Your task to perform on an android device: Open settings on Google Maps Image 0: 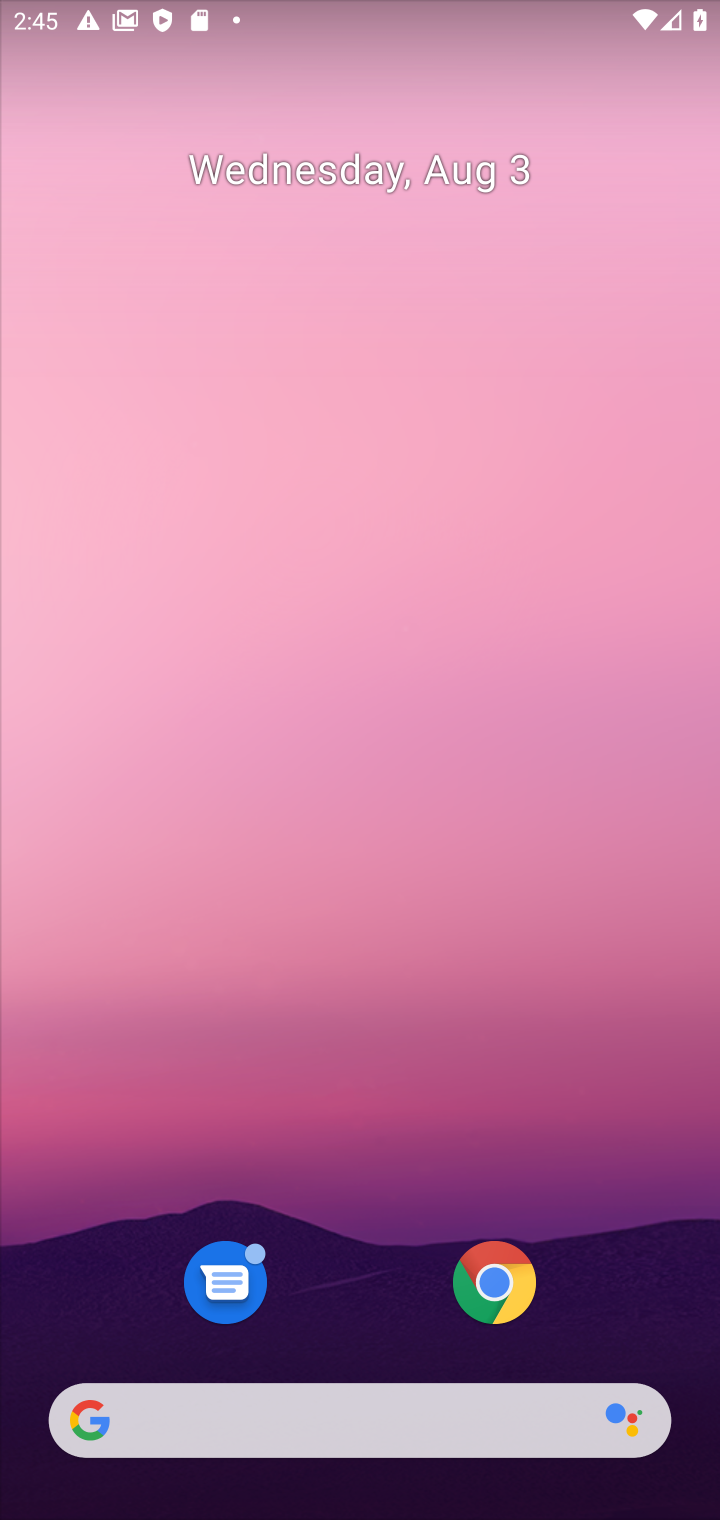
Step 0: drag from (396, 1408) to (211, 704)
Your task to perform on an android device: Open settings on Google Maps Image 1: 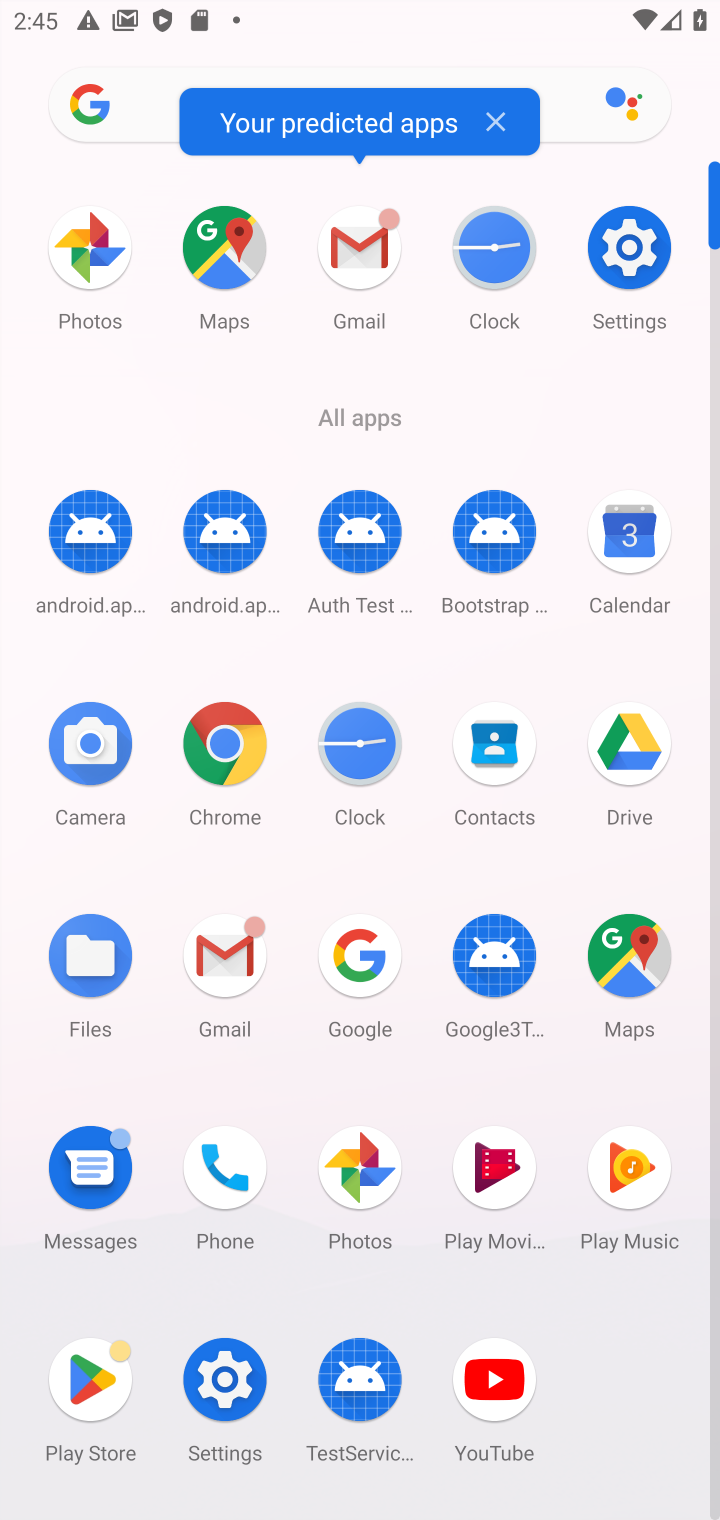
Step 1: click (621, 962)
Your task to perform on an android device: Open settings on Google Maps Image 2: 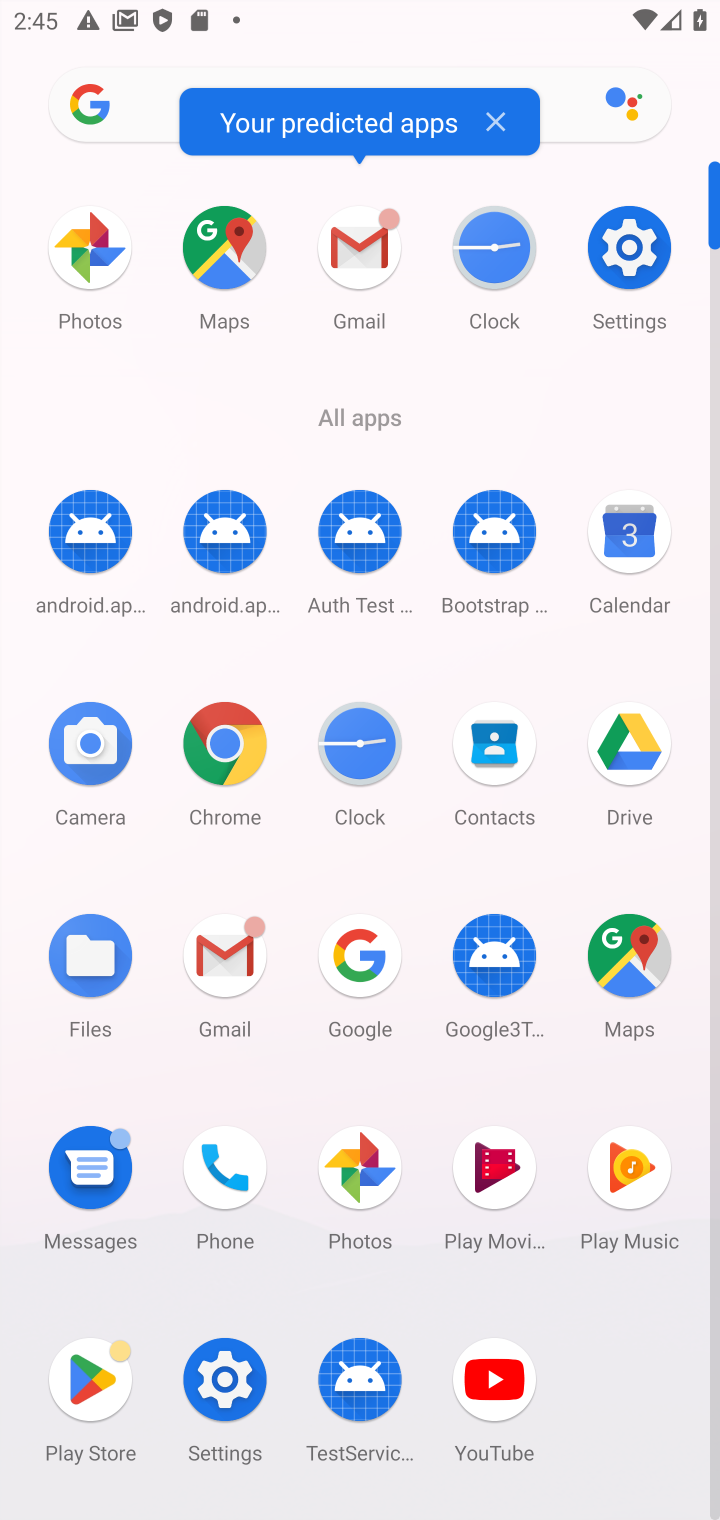
Step 2: click (621, 964)
Your task to perform on an android device: Open settings on Google Maps Image 3: 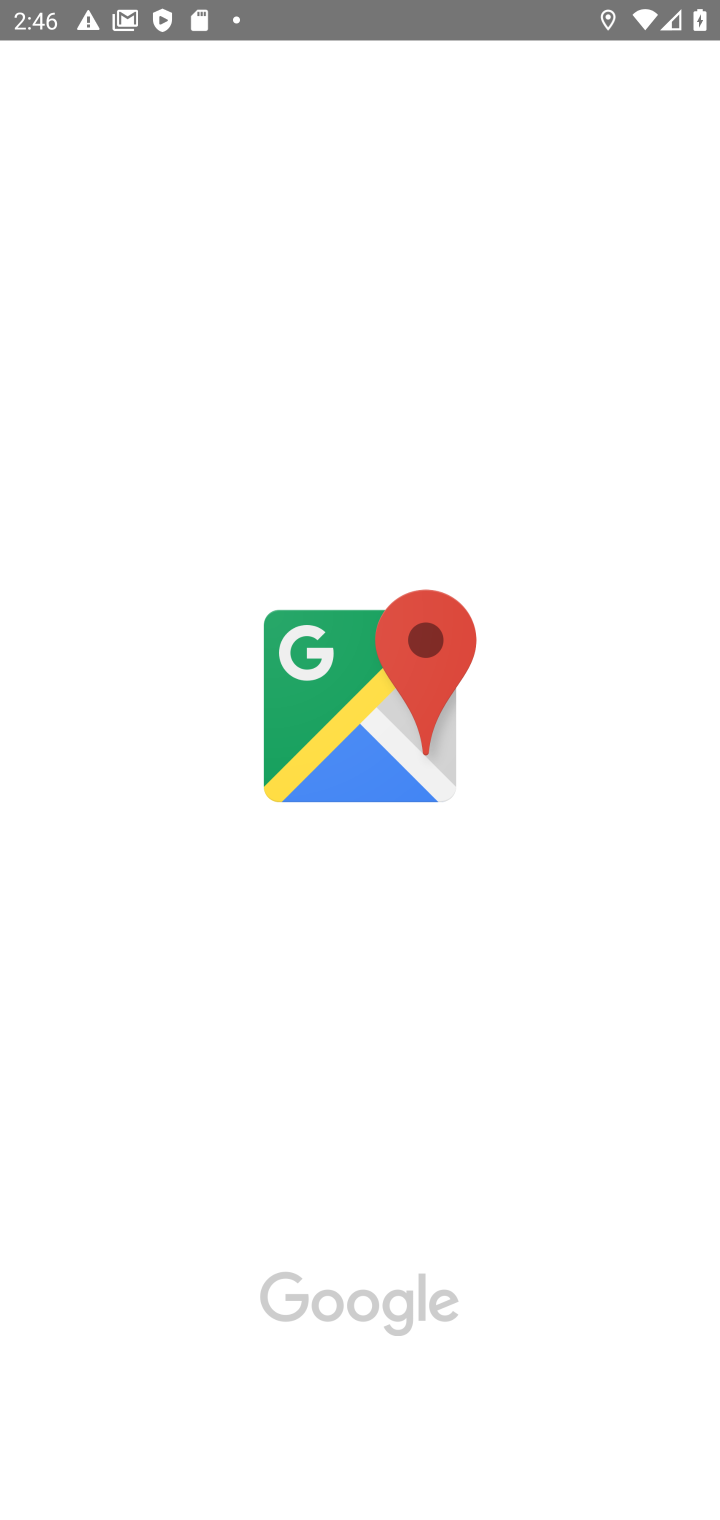
Step 3: press back button
Your task to perform on an android device: Open settings on Google Maps Image 4: 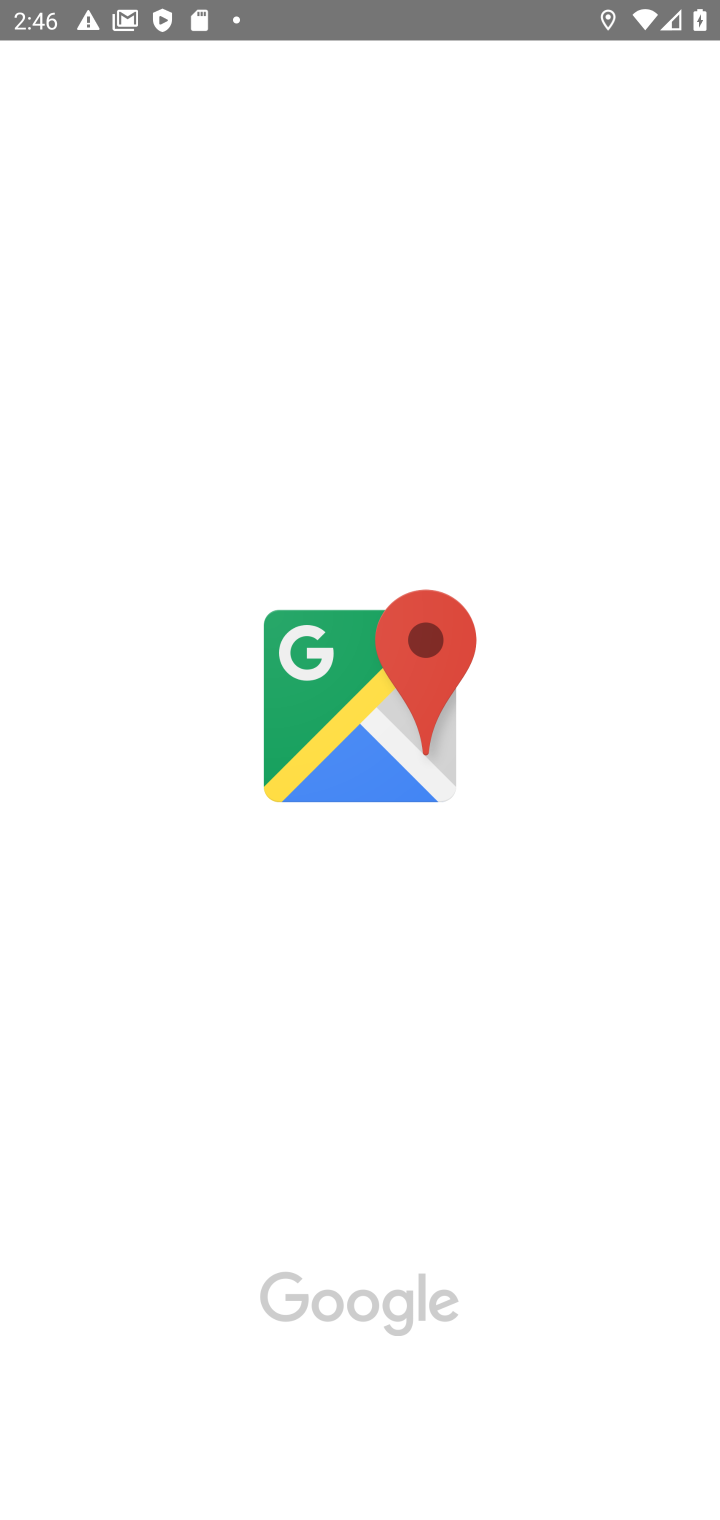
Step 4: click (269, 301)
Your task to perform on an android device: Open settings on Google Maps Image 5: 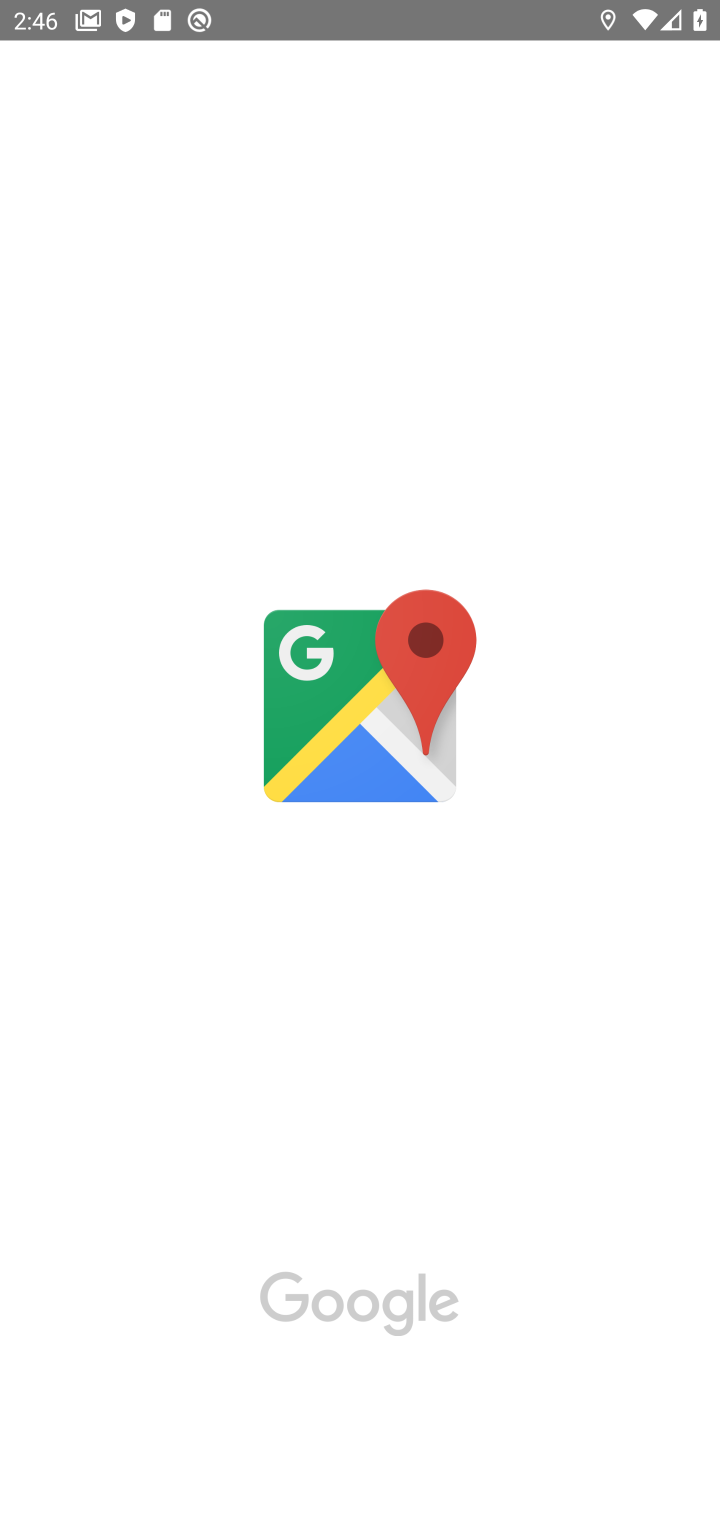
Step 5: press back button
Your task to perform on an android device: Open settings on Google Maps Image 6: 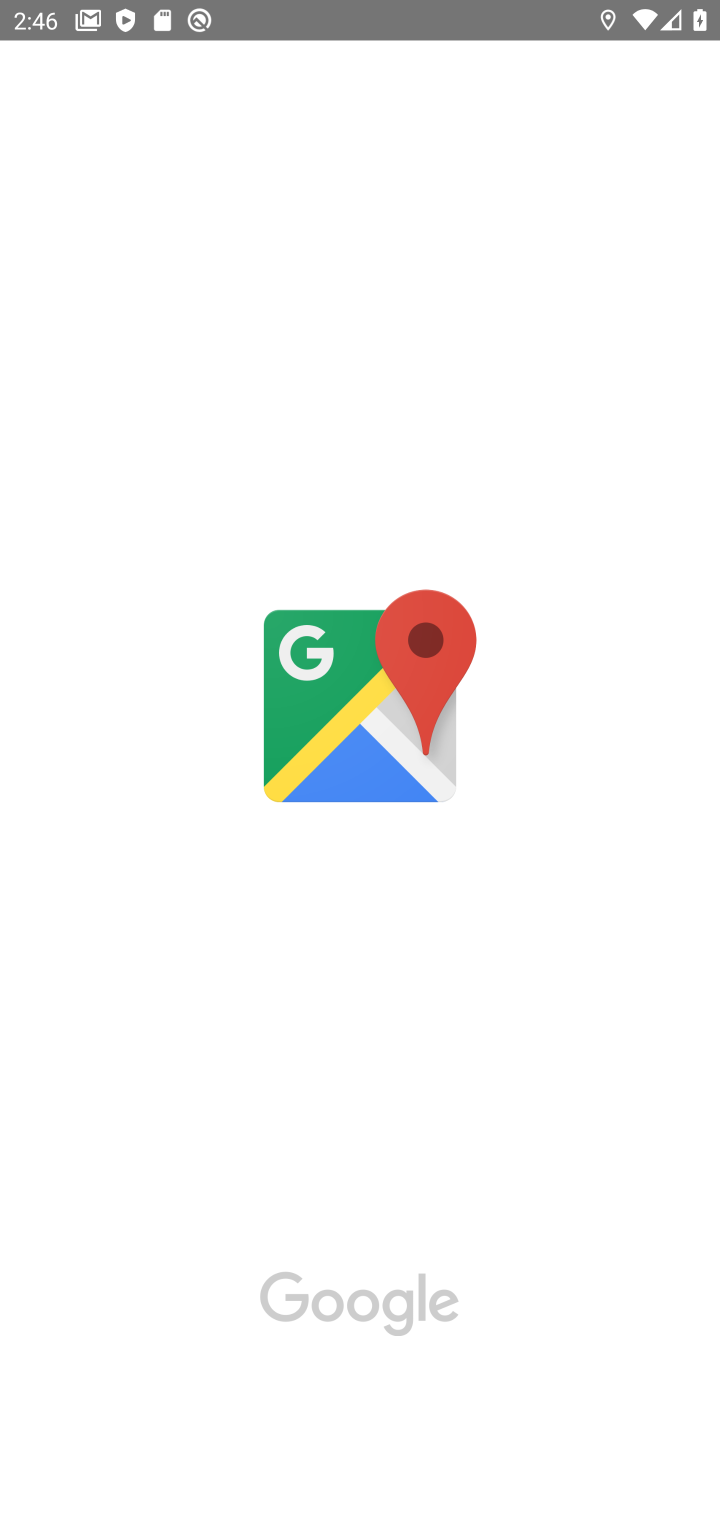
Step 6: press home button
Your task to perform on an android device: Open settings on Google Maps Image 7: 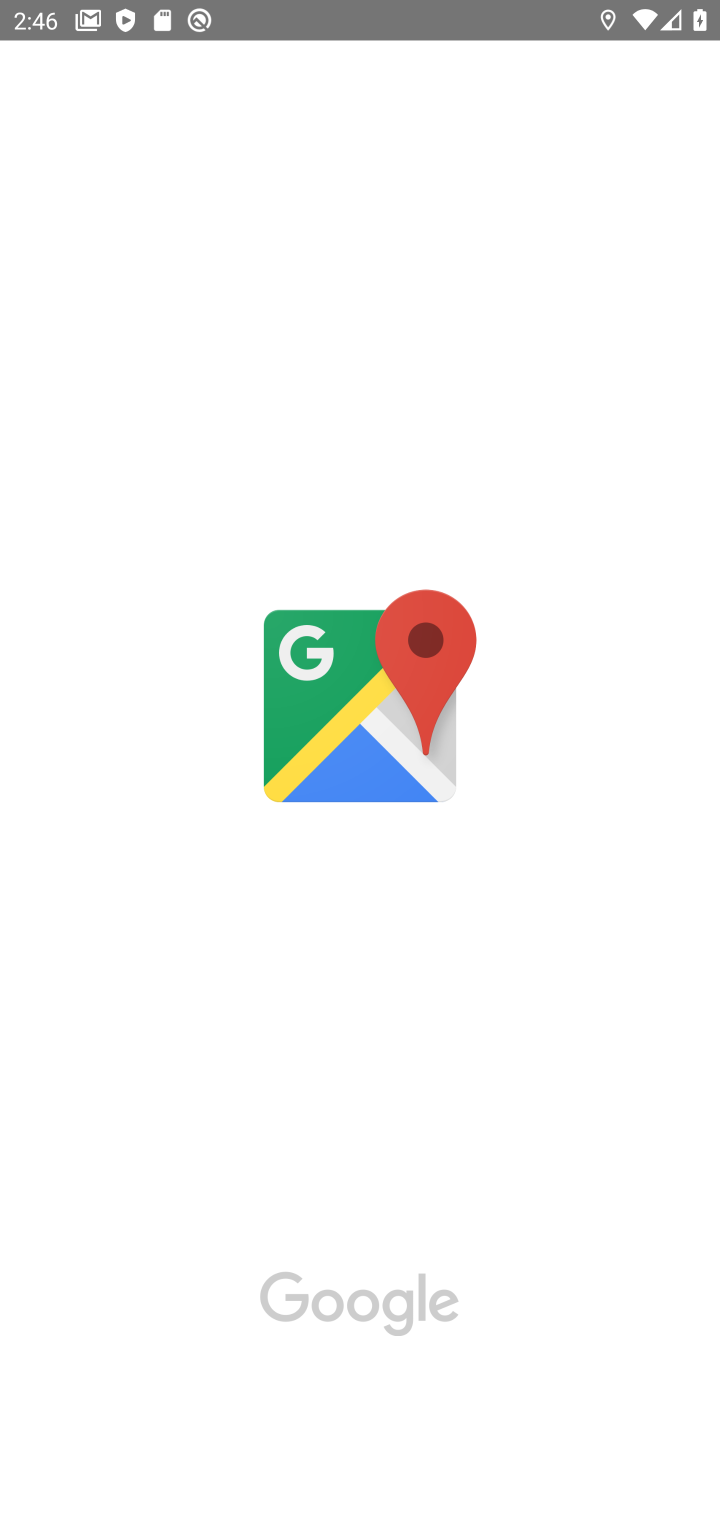
Step 7: click (231, 105)
Your task to perform on an android device: Open settings on Google Maps Image 8: 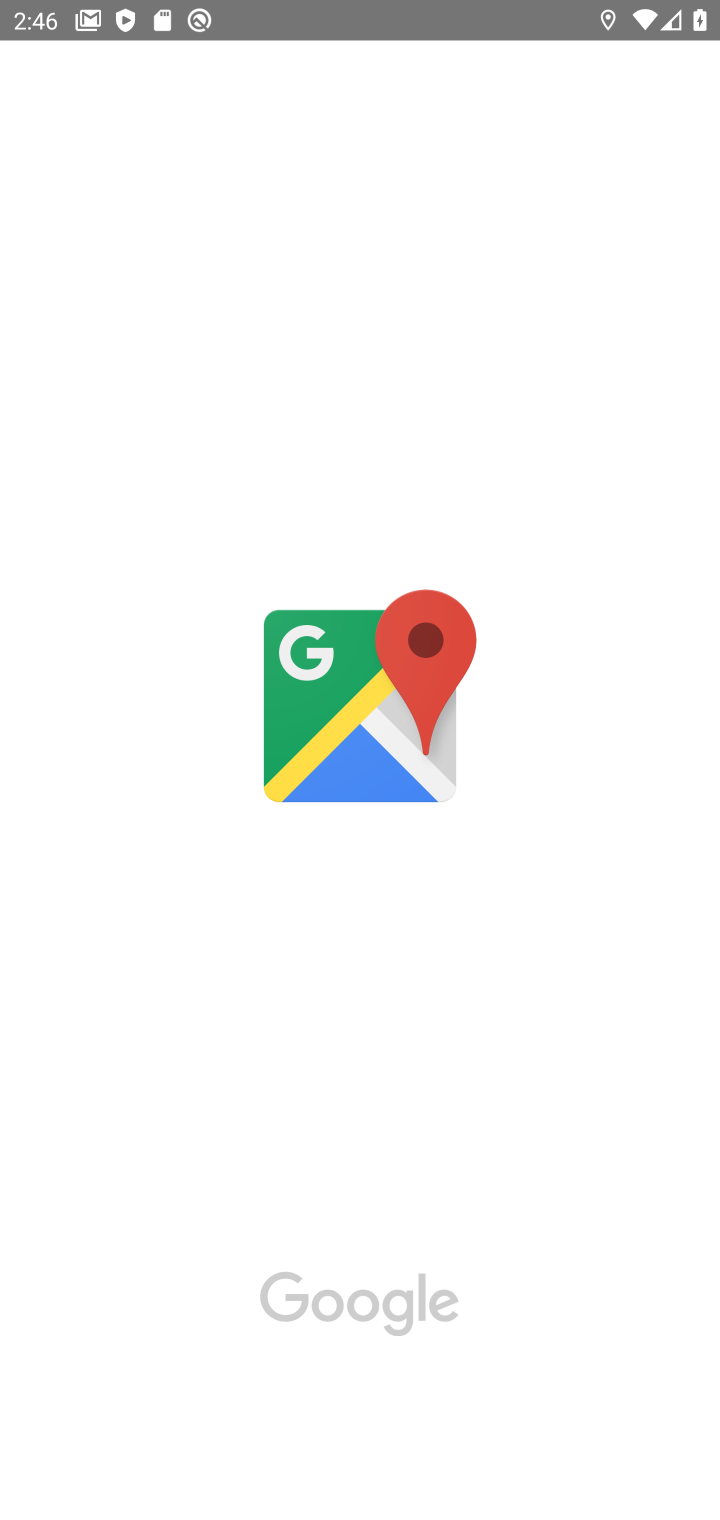
Step 8: press back button
Your task to perform on an android device: Open settings on Google Maps Image 9: 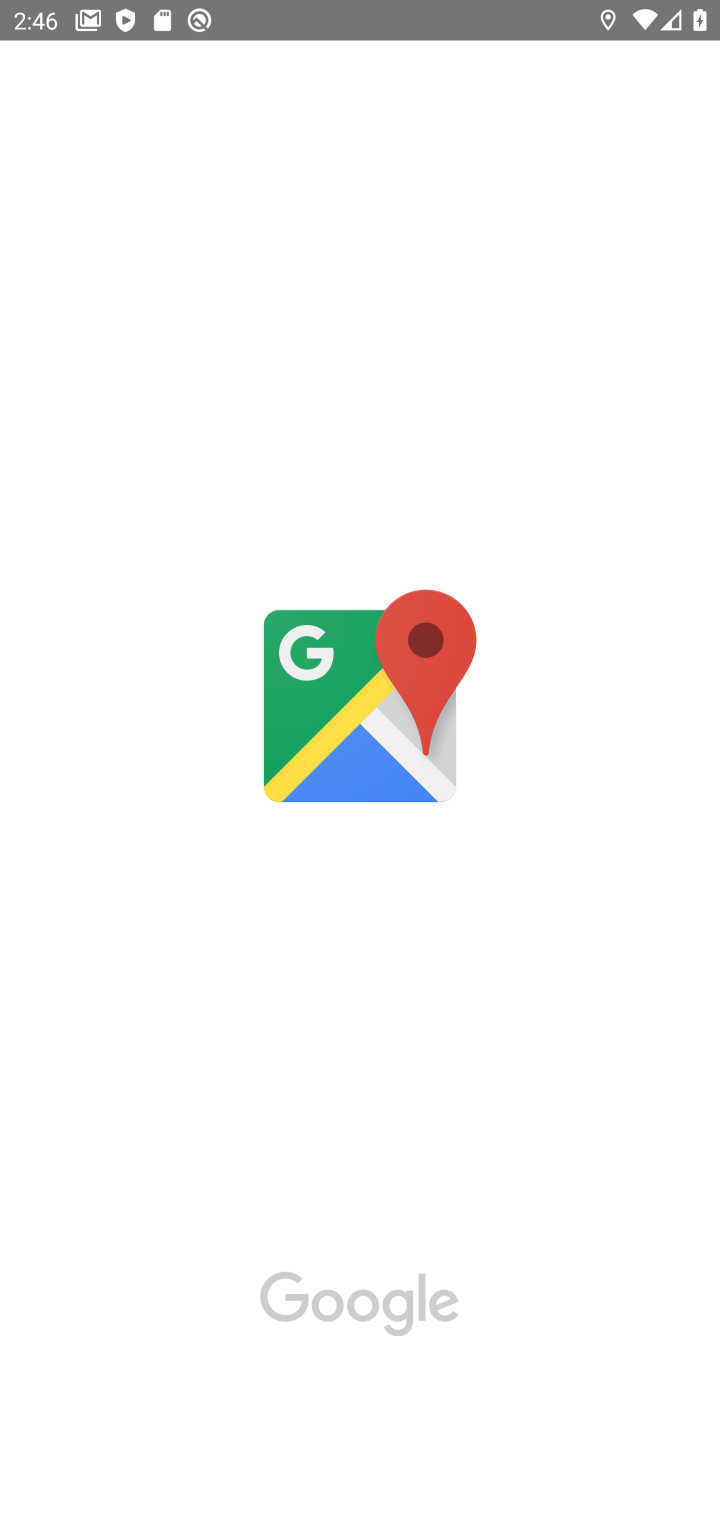
Step 9: click (171, 1296)
Your task to perform on an android device: Open settings on Google Maps Image 10: 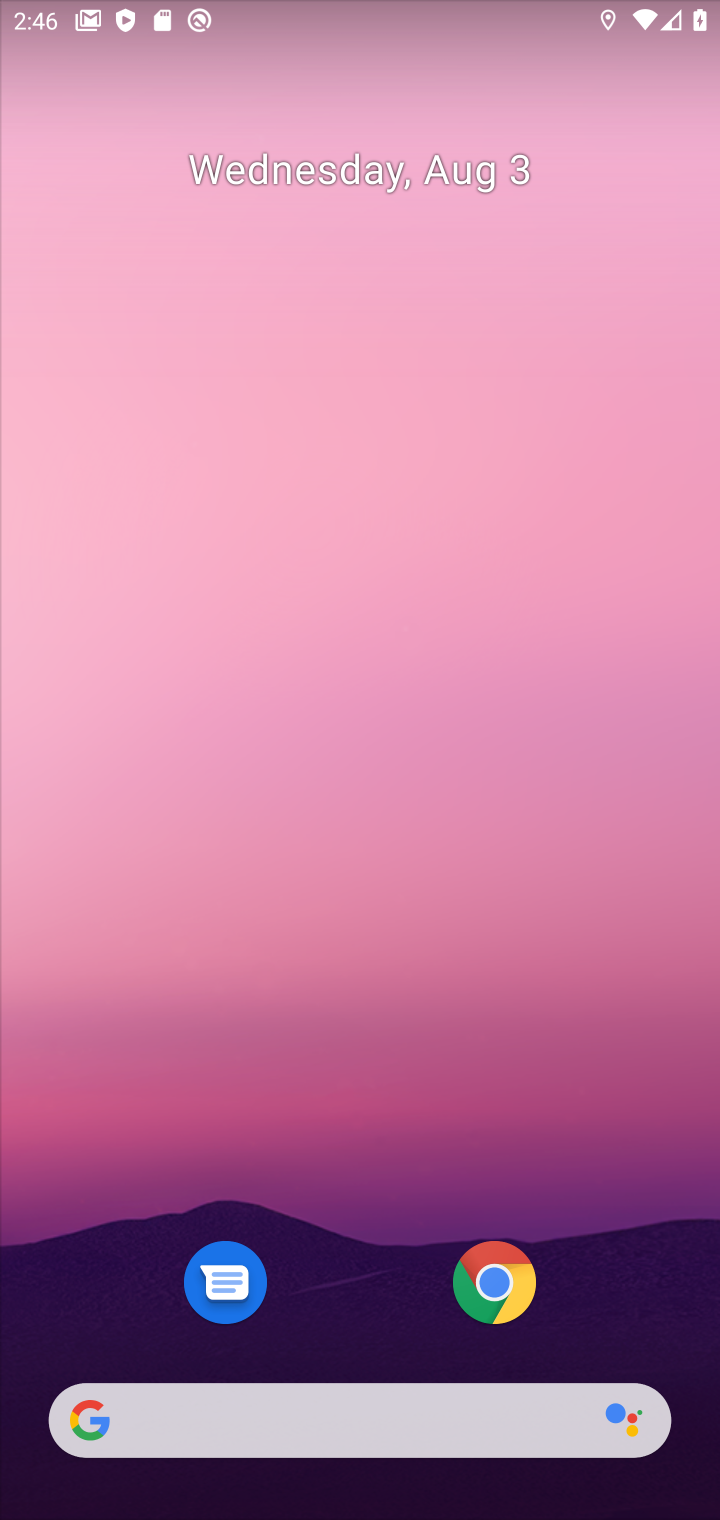
Step 10: drag from (267, 1257) to (295, 310)
Your task to perform on an android device: Open settings on Google Maps Image 11: 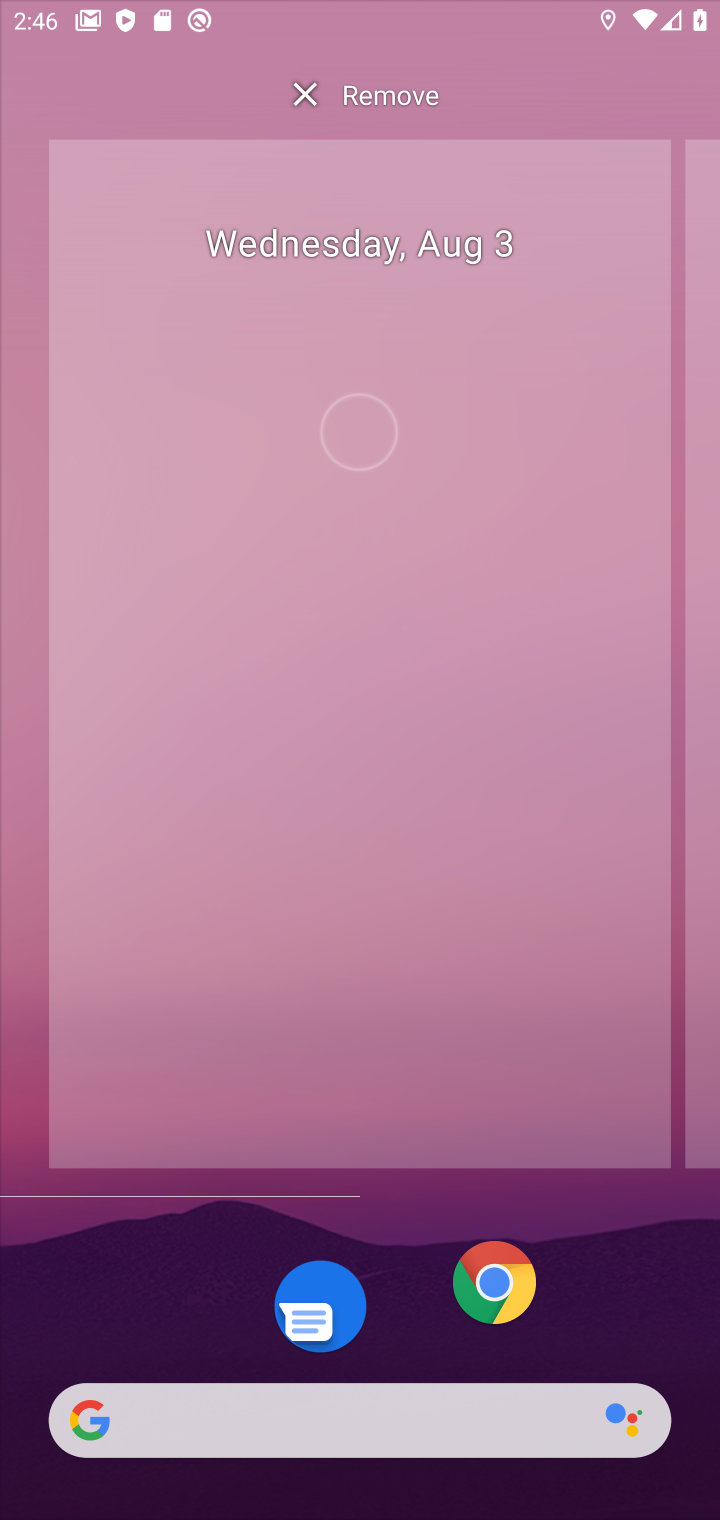
Step 11: drag from (117, 464) to (307, 111)
Your task to perform on an android device: Open settings on Google Maps Image 12: 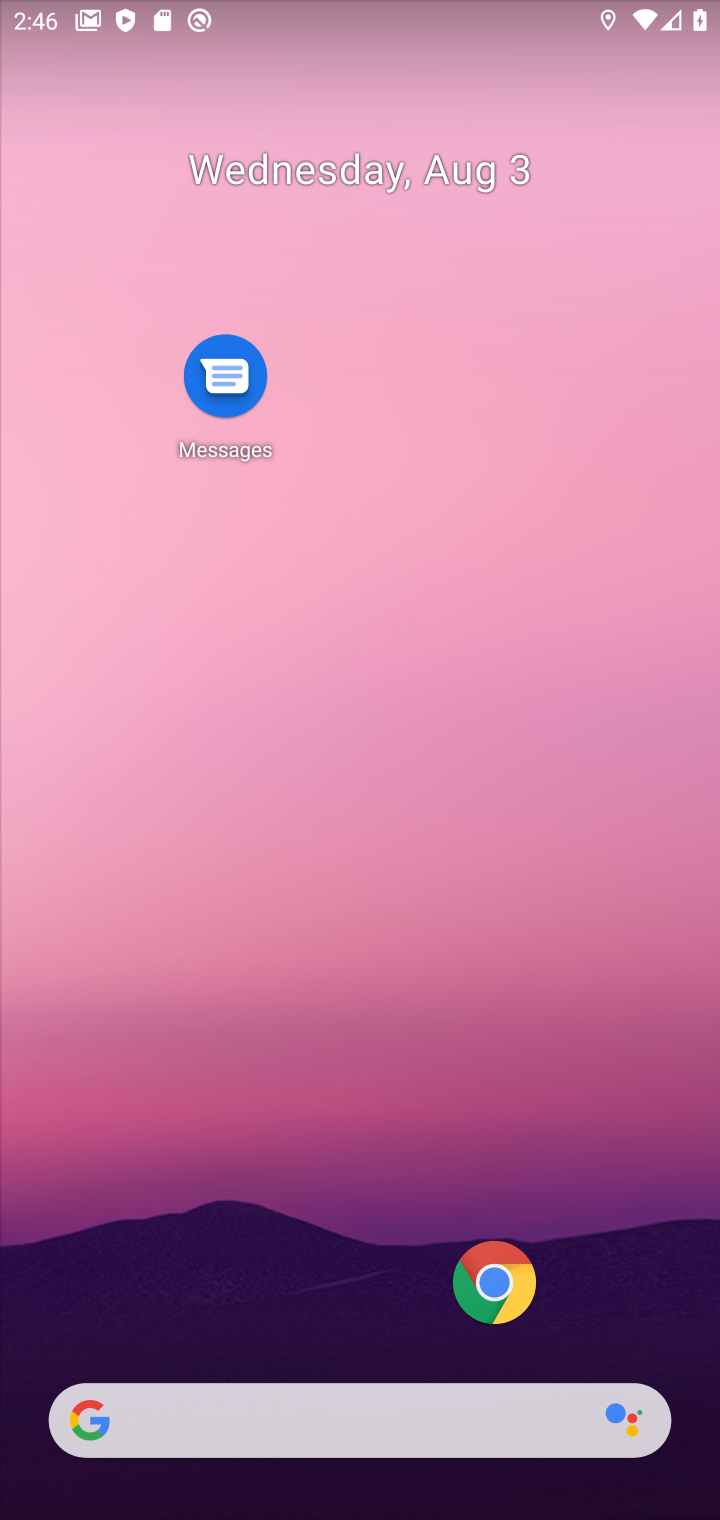
Step 12: drag from (17, 657) to (288, 202)
Your task to perform on an android device: Open settings on Google Maps Image 13: 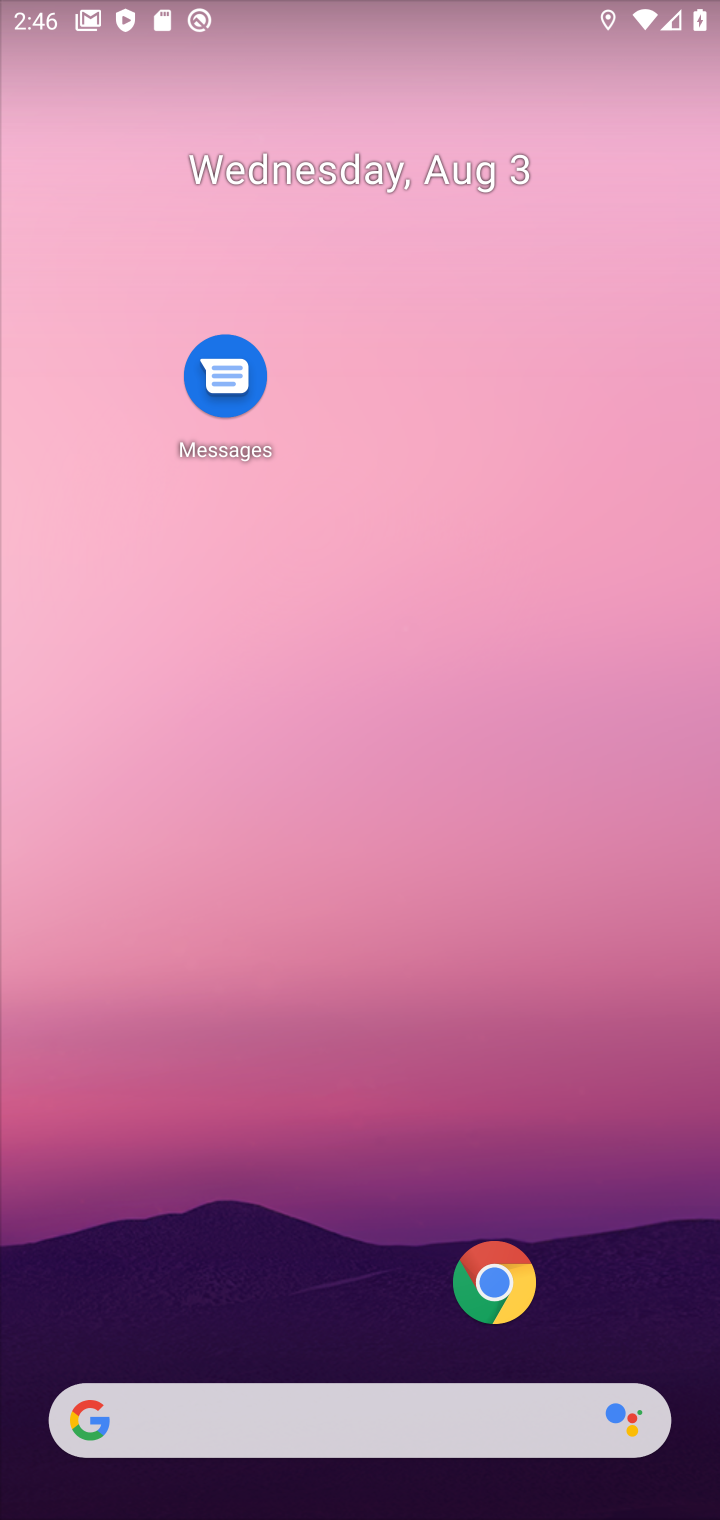
Step 13: click (252, 164)
Your task to perform on an android device: Open settings on Google Maps Image 14: 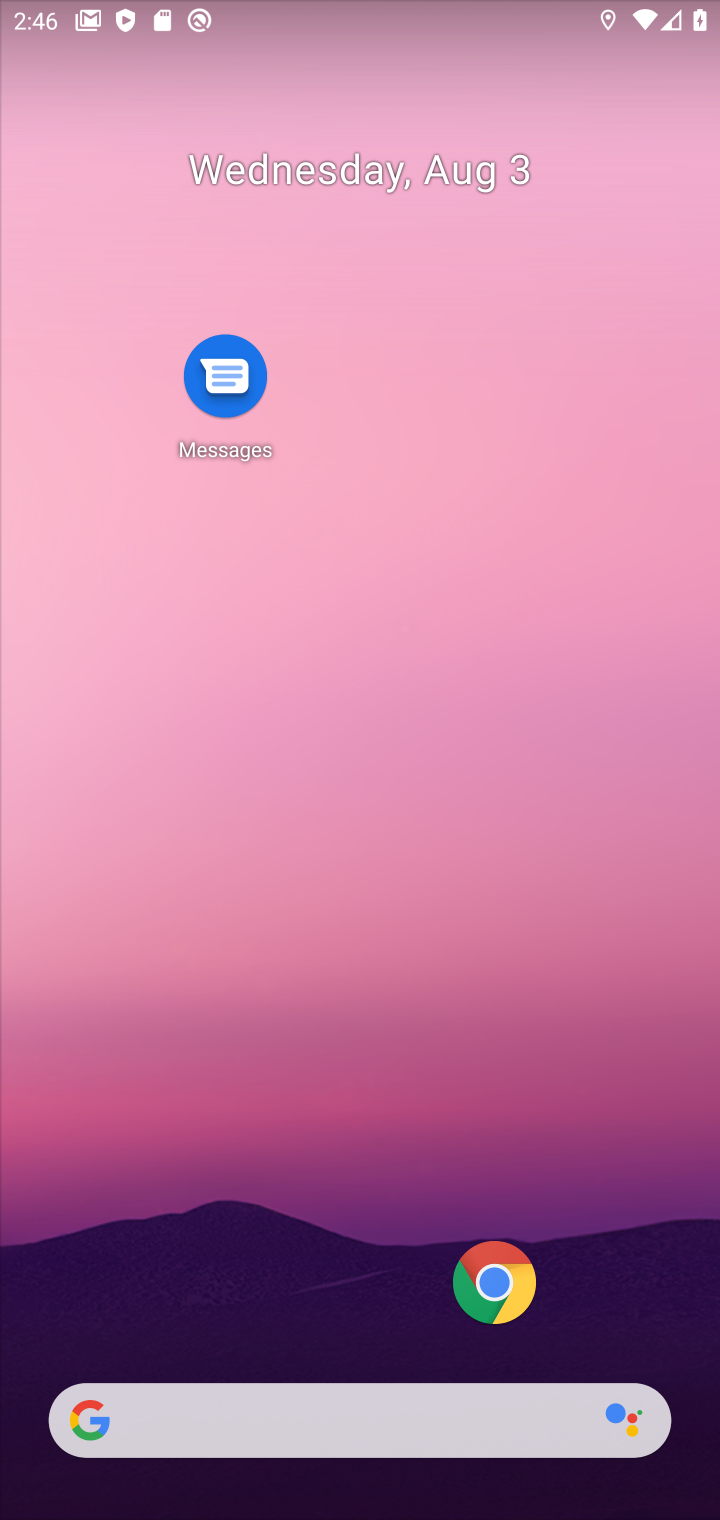
Step 14: click (290, 492)
Your task to perform on an android device: Open settings on Google Maps Image 15: 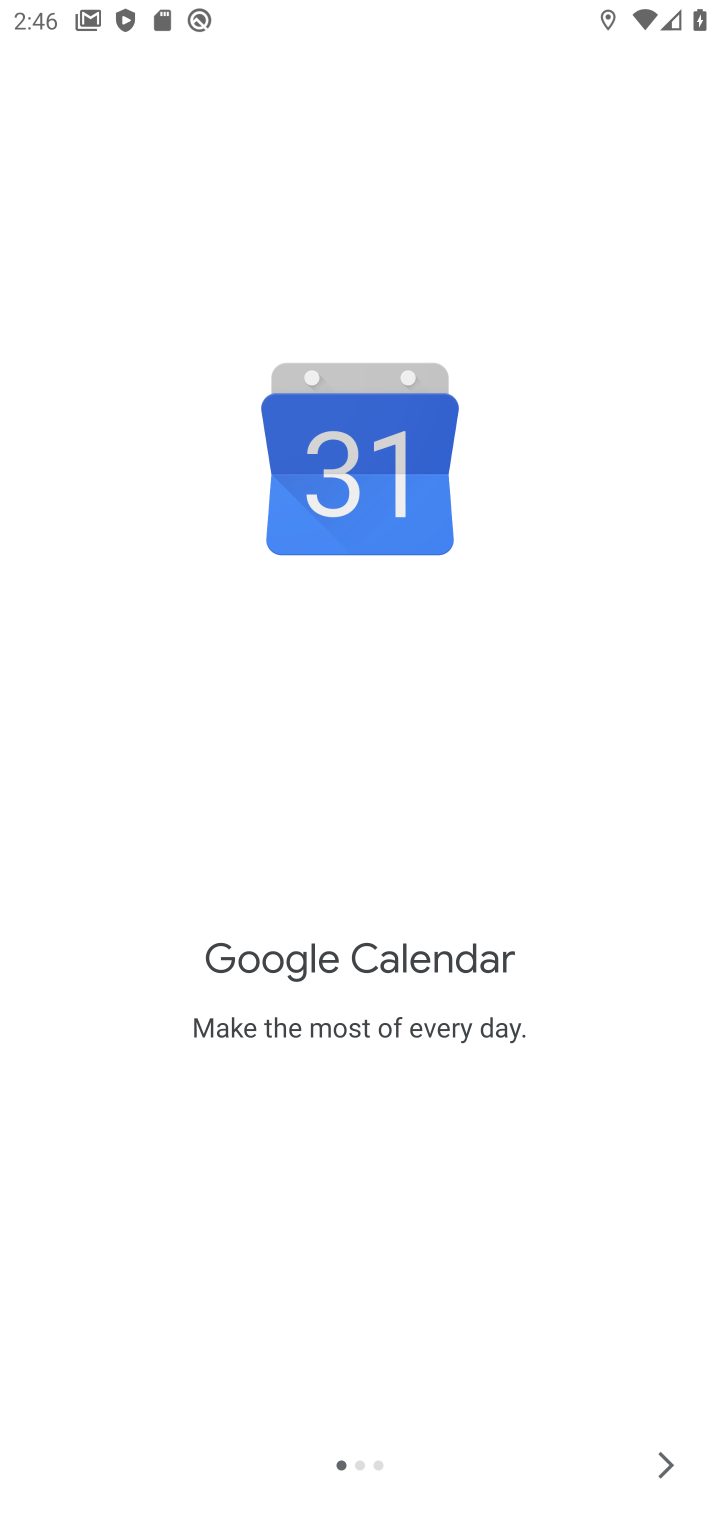
Step 15: drag from (480, 1202) to (358, 466)
Your task to perform on an android device: Open settings on Google Maps Image 16: 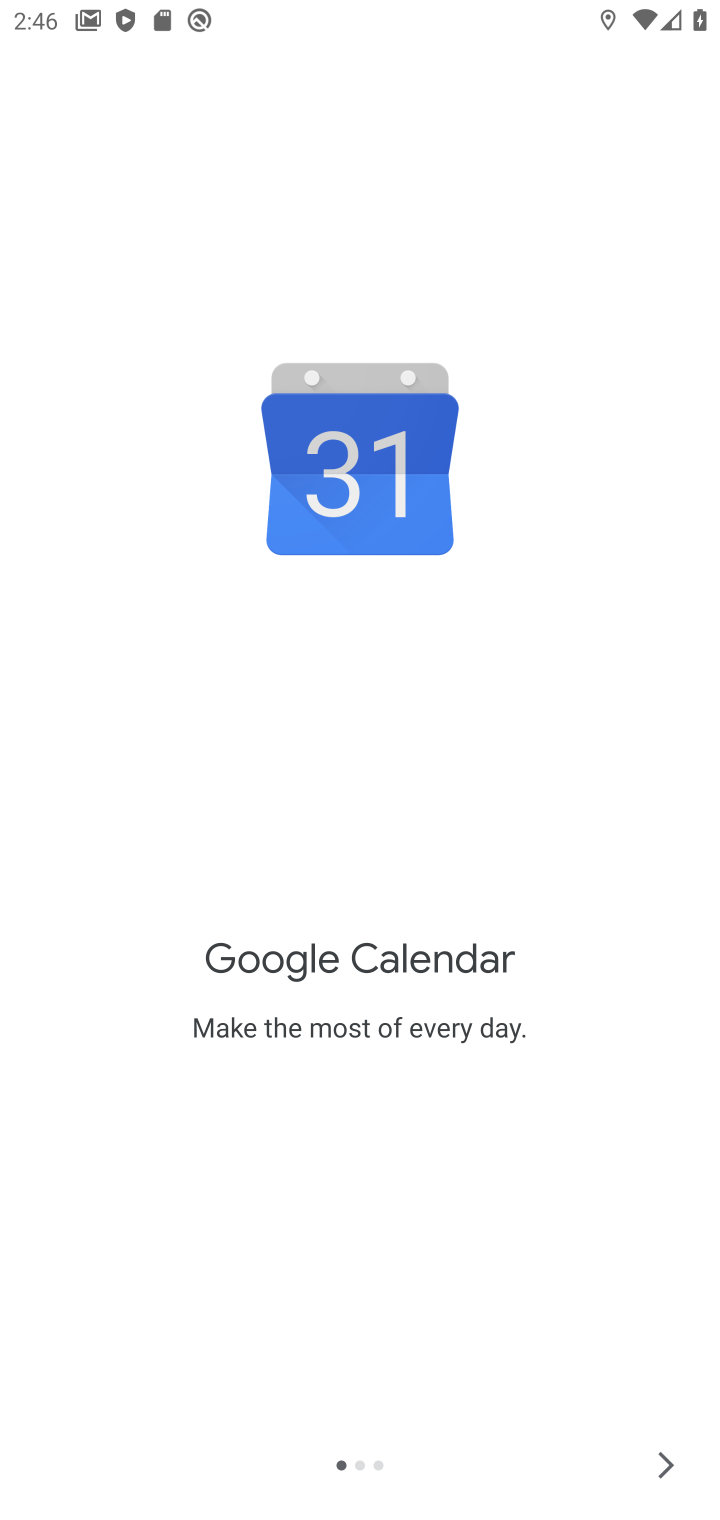
Step 16: press back button
Your task to perform on an android device: Open settings on Google Maps Image 17: 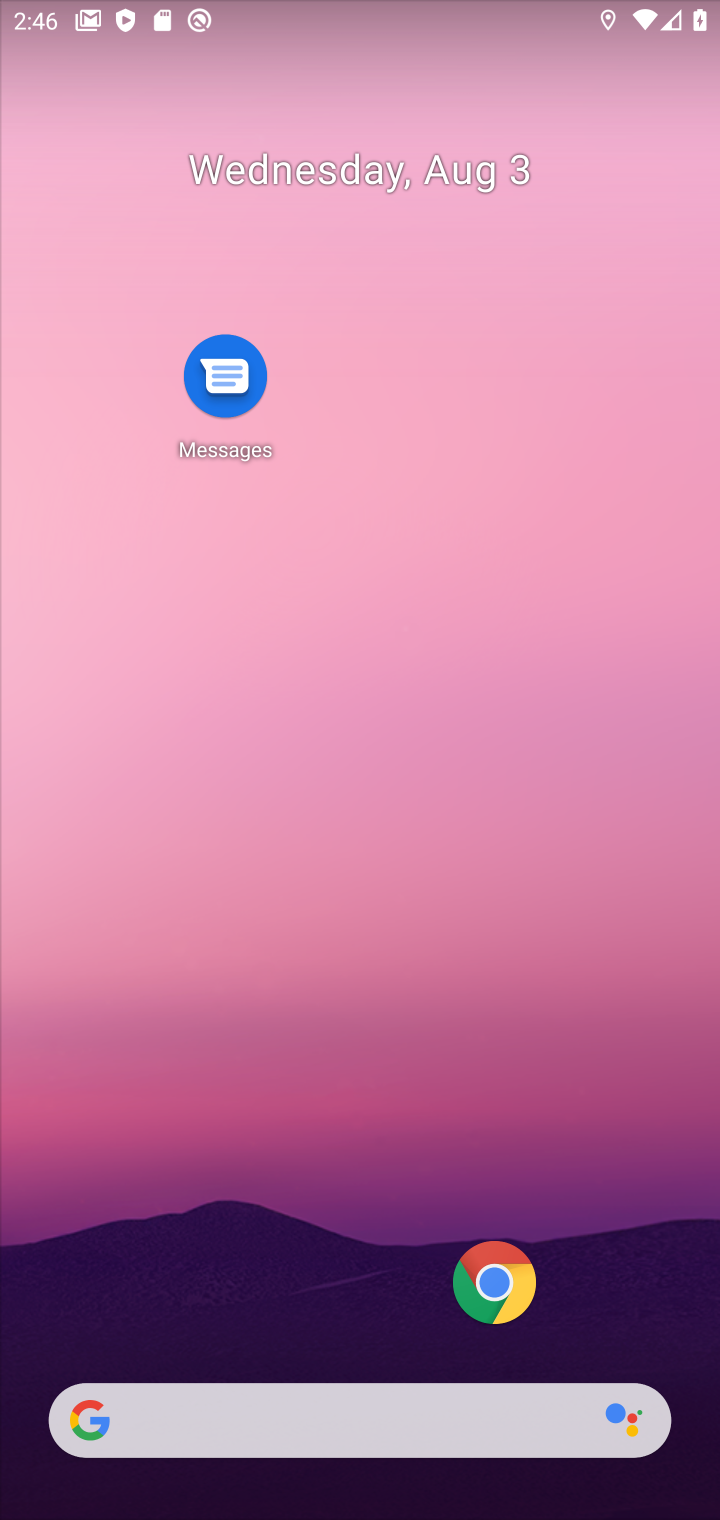
Step 17: drag from (151, 147) to (228, 112)
Your task to perform on an android device: Open settings on Google Maps Image 18: 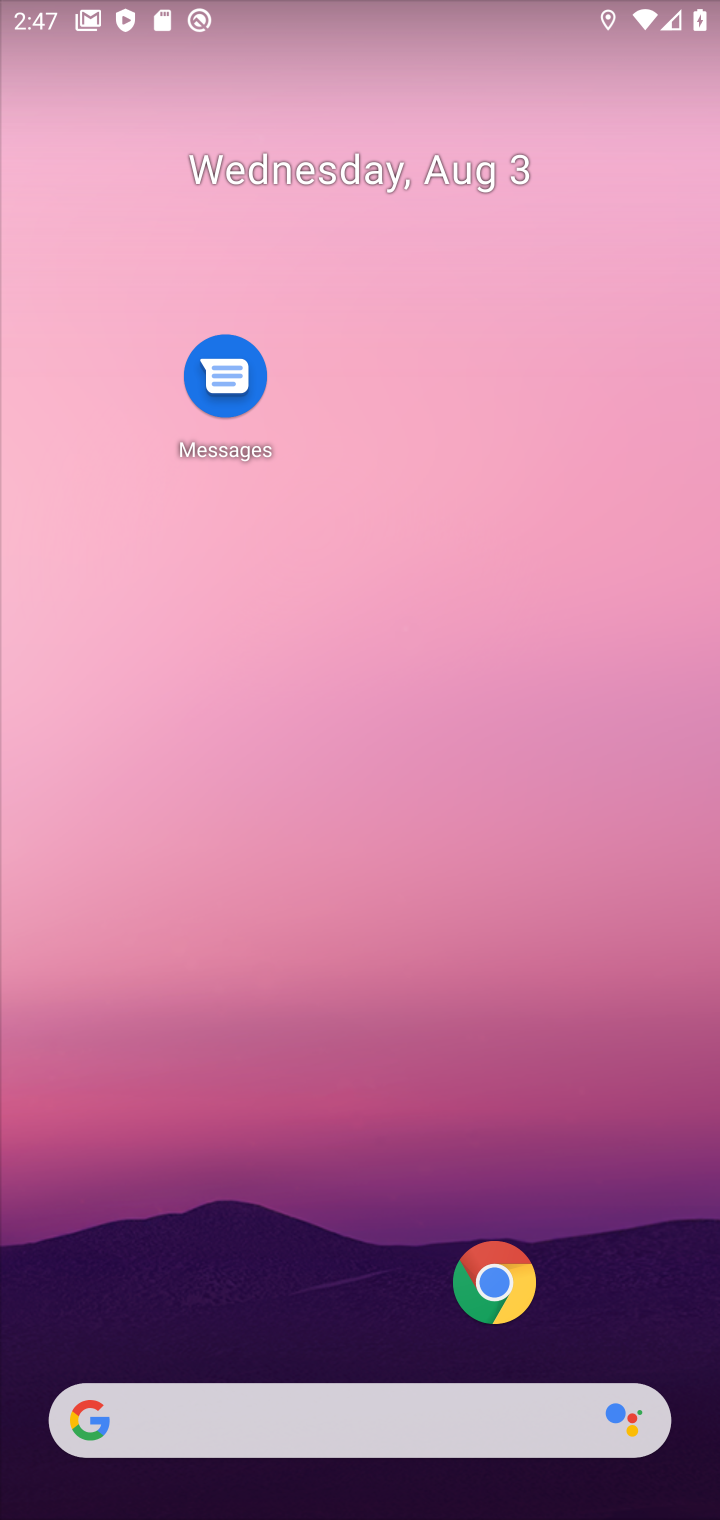
Step 18: drag from (343, 1331) to (174, 69)
Your task to perform on an android device: Open settings on Google Maps Image 19: 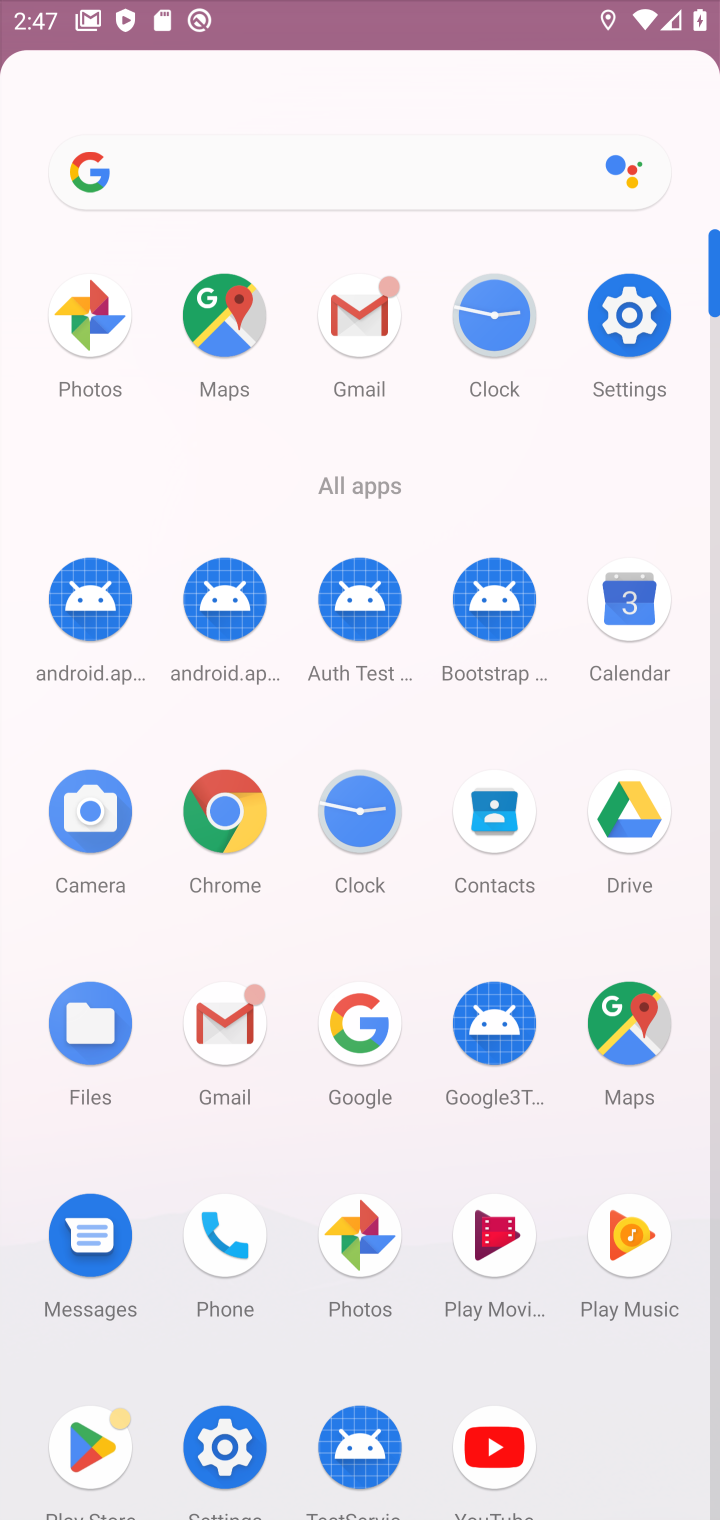
Step 19: drag from (317, 523) to (342, 103)
Your task to perform on an android device: Open settings on Google Maps Image 20: 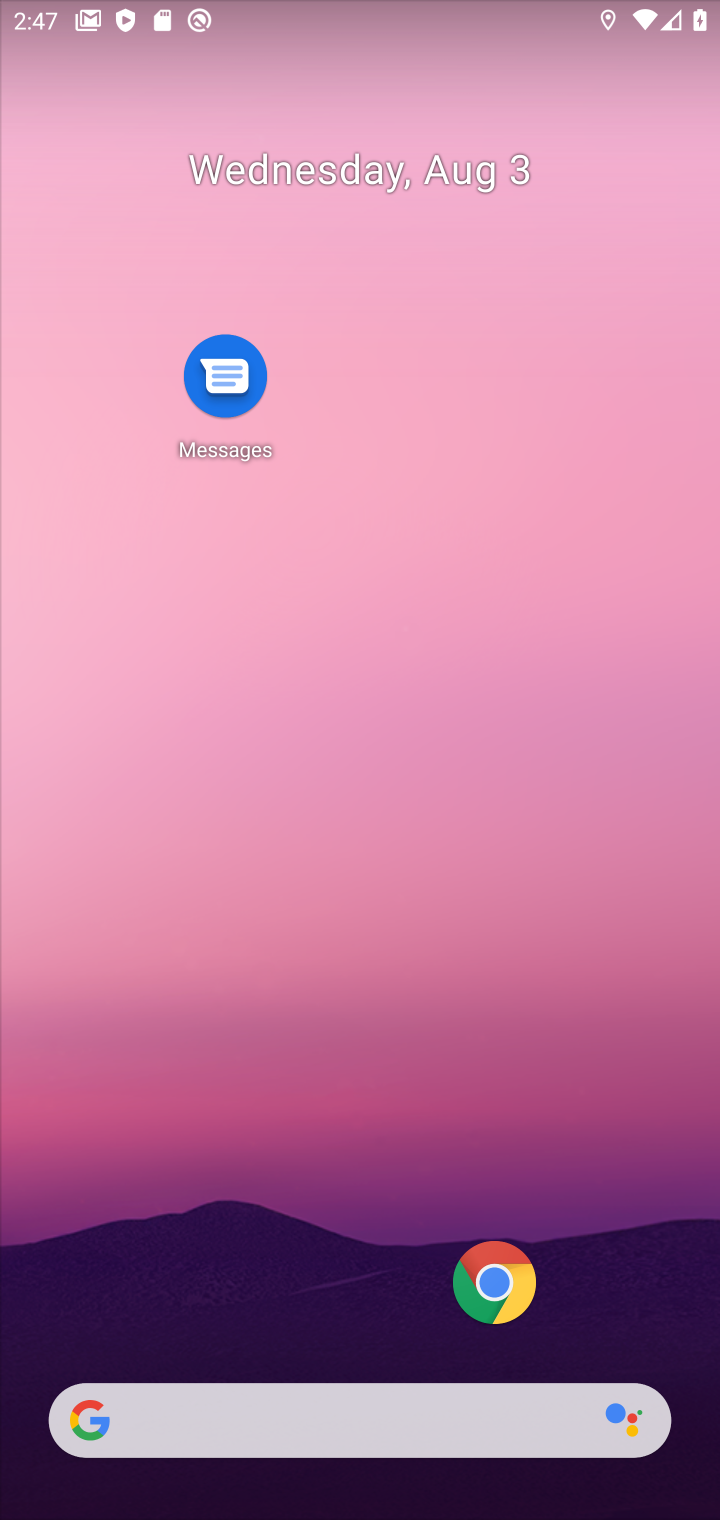
Step 20: drag from (316, 916) to (263, 261)
Your task to perform on an android device: Open settings on Google Maps Image 21: 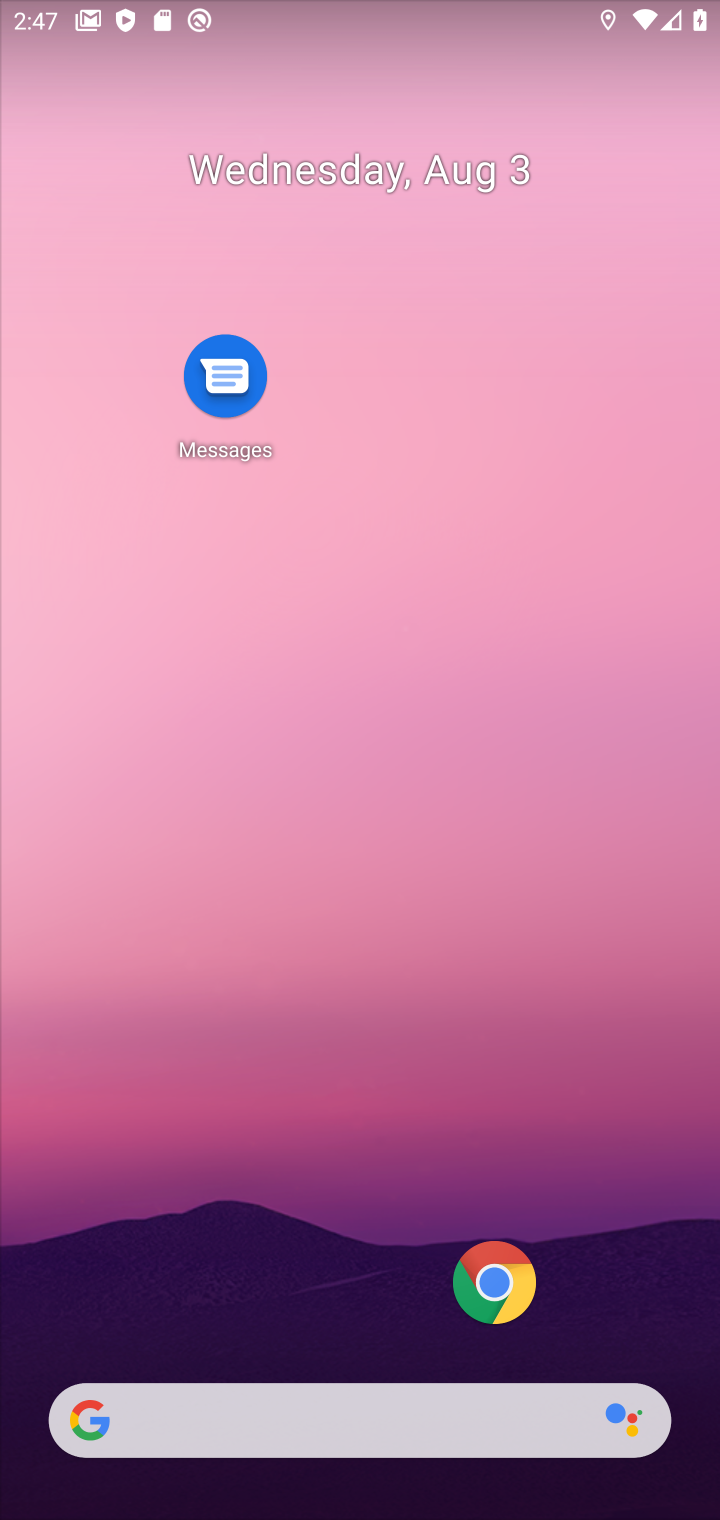
Step 21: drag from (508, 1243) to (255, 250)
Your task to perform on an android device: Open settings on Google Maps Image 22: 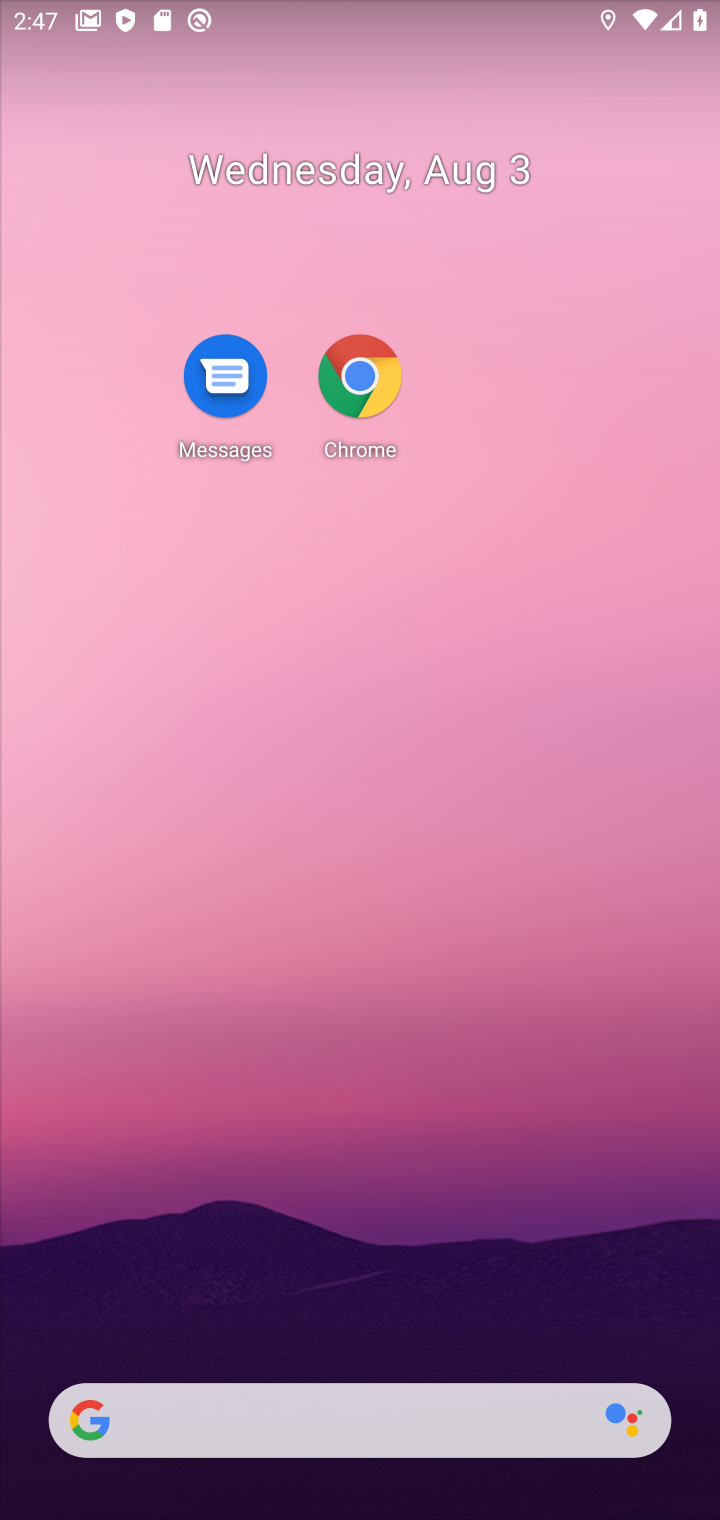
Step 22: drag from (271, 978) to (128, 217)
Your task to perform on an android device: Open settings on Google Maps Image 23: 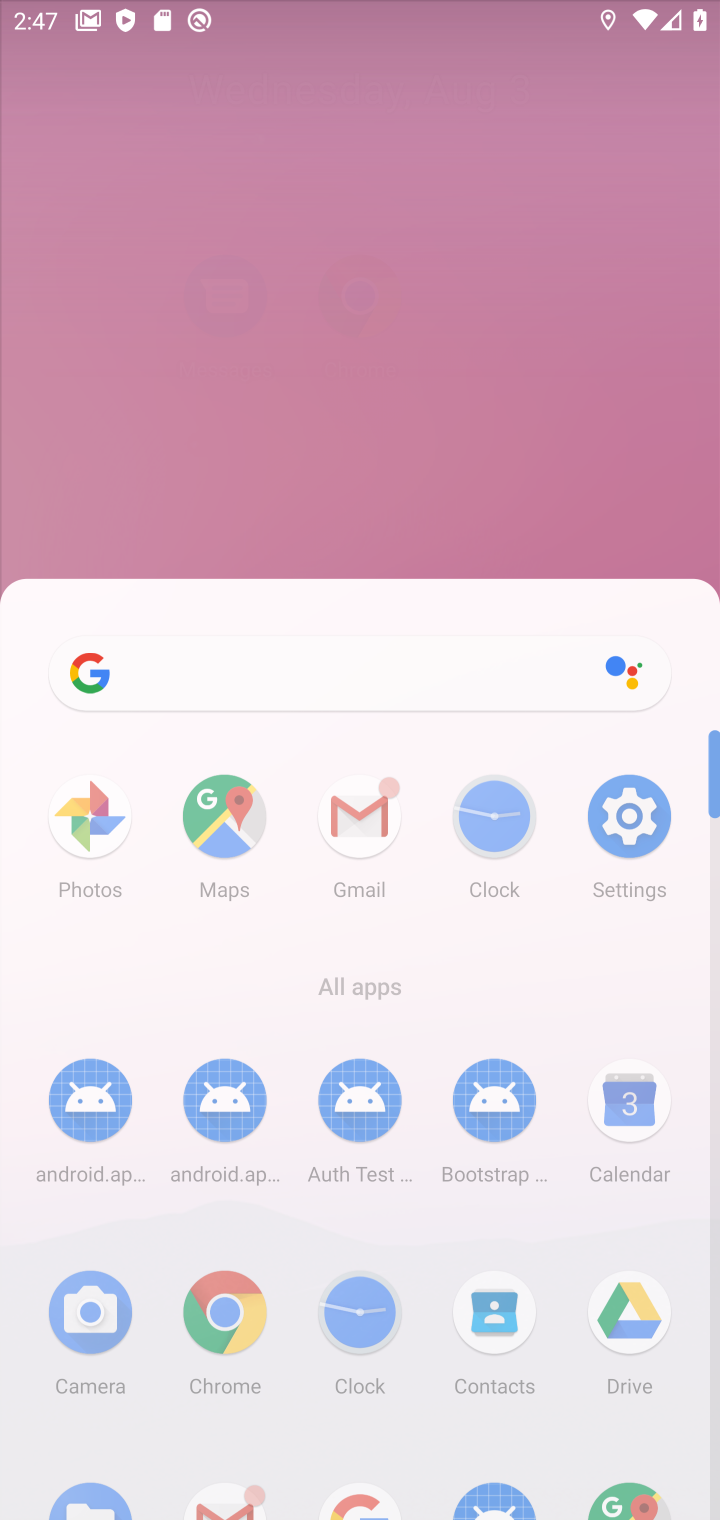
Step 23: drag from (490, 1389) to (238, 240)
Your task to perform on an android device: Open settings on Google Maps Image 24: 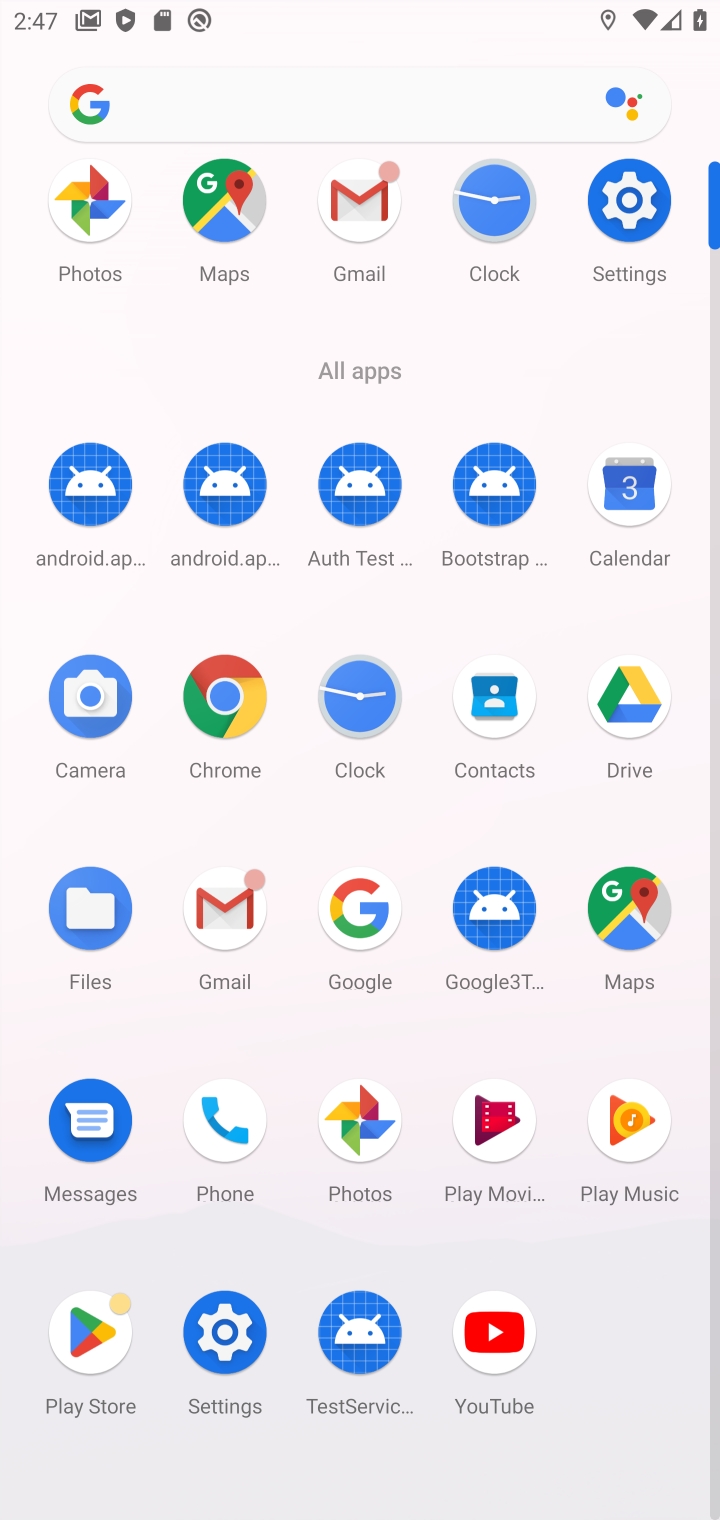
Step 24: click (240, 238)
Your task to perform on an android device: Open settings on Google Maps Image 25: 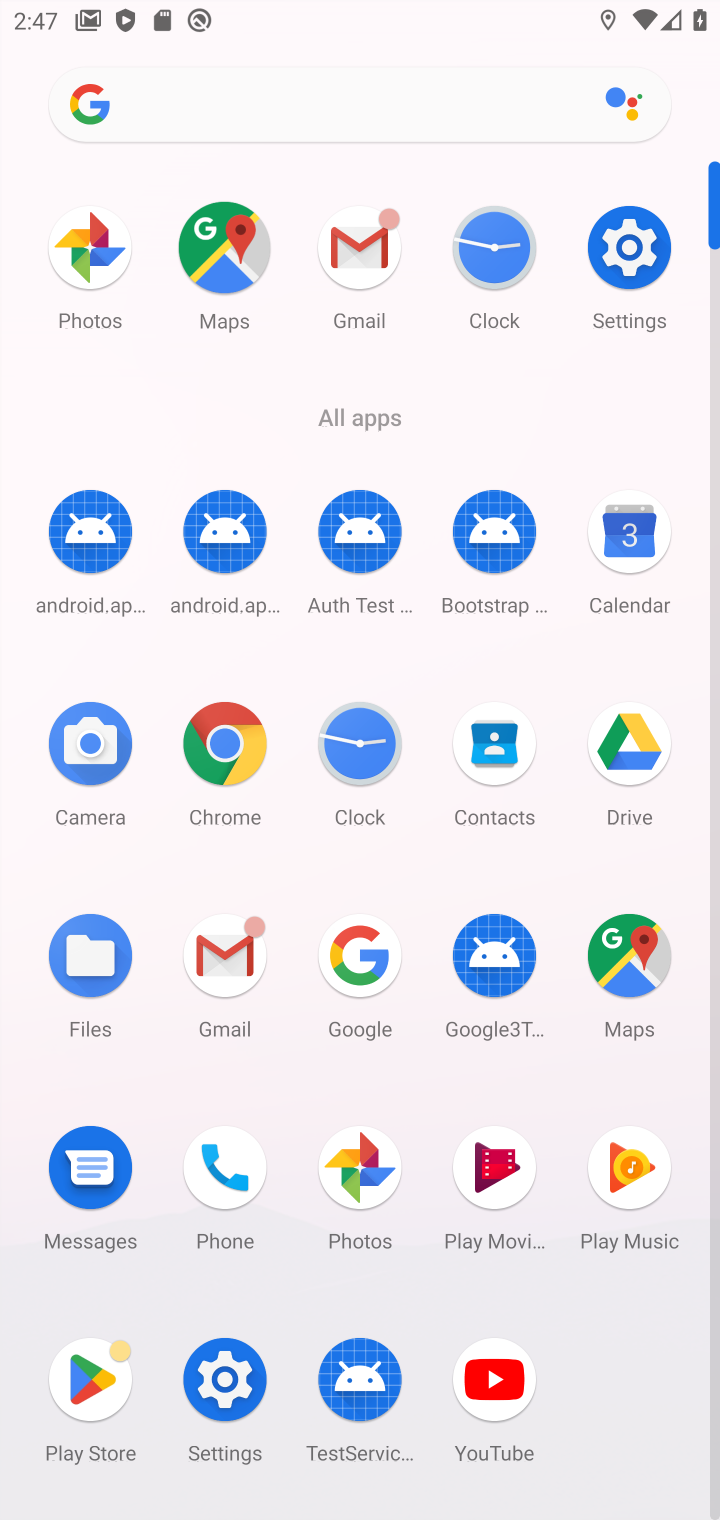
Step 25: click (223, 210)
Your task to perform on an android device: Open settings on Google Maps Image 26: 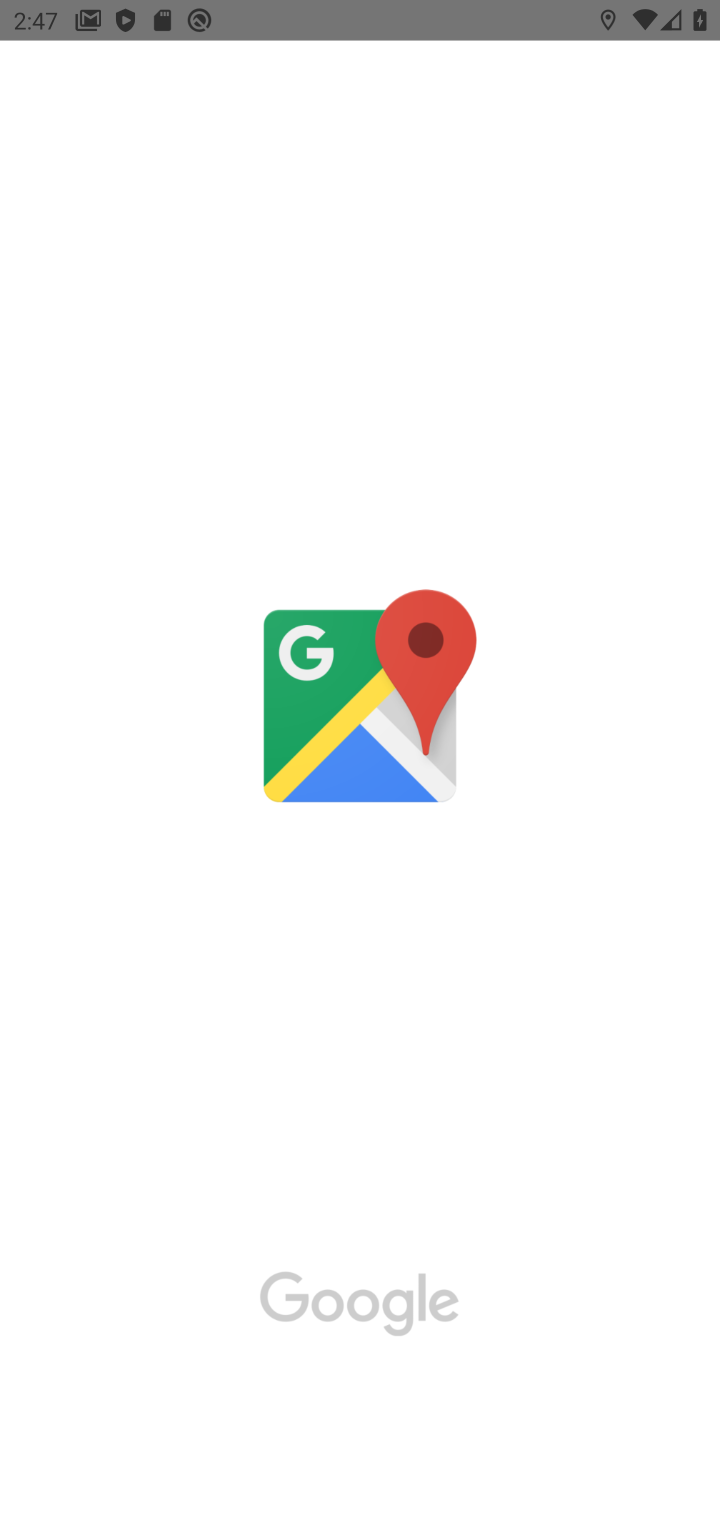
Step 26: click (216, 227)
Your task to perform on an android device: Open settings on Google Maps Image 27: 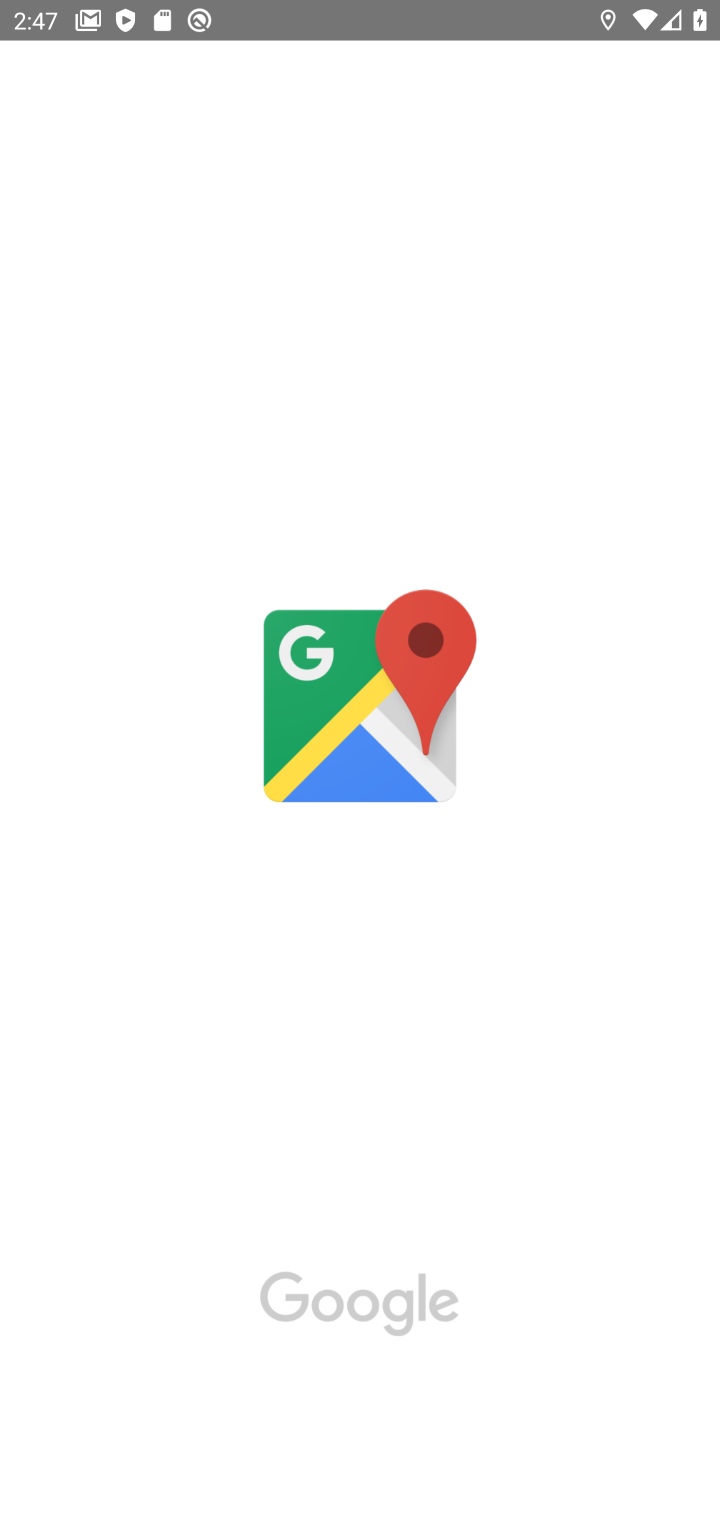
Step 27: click (221, 236)
Your task to perform on an android device: Open settings on Google Maps Image 28: 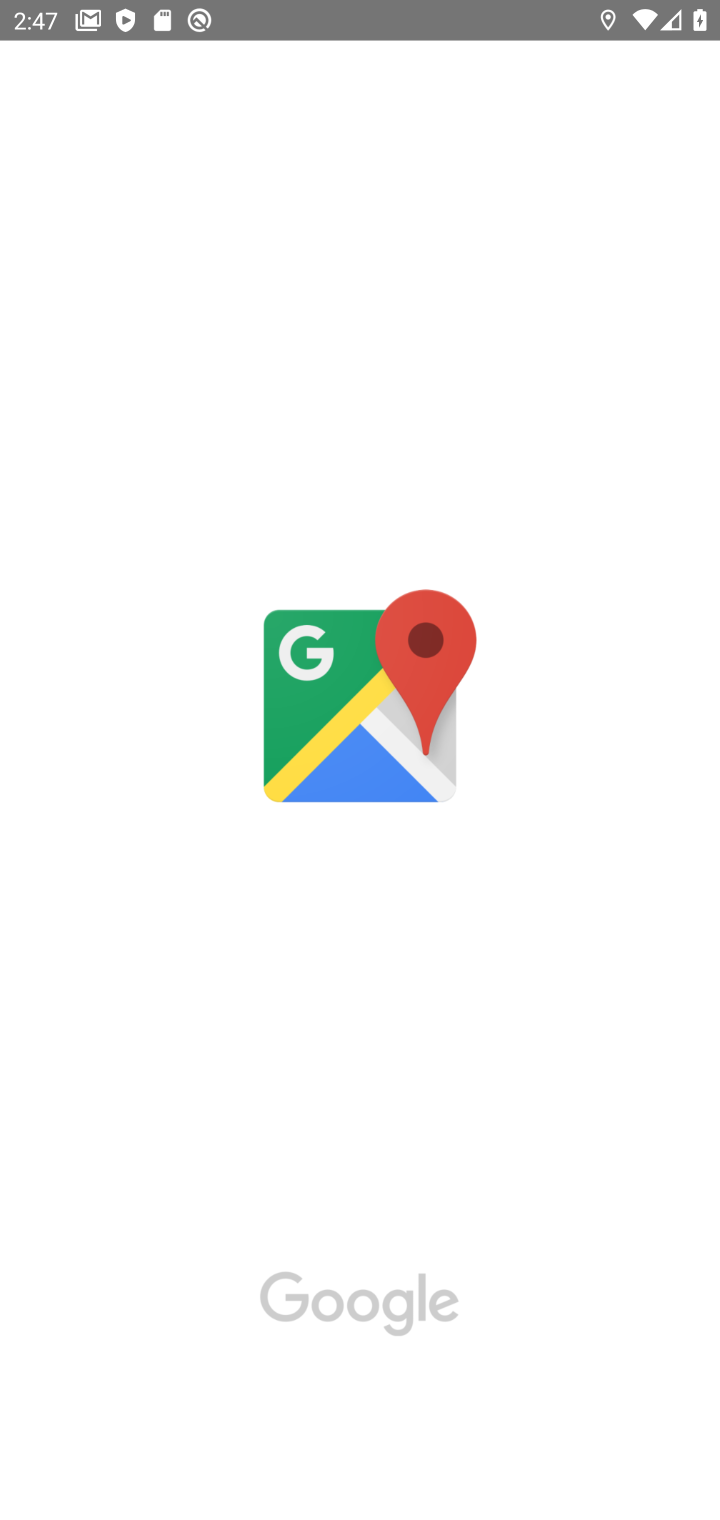
Step 28: click (353, 722)
Your task to perform on an android device: Open settings on Google Maps Image 29: 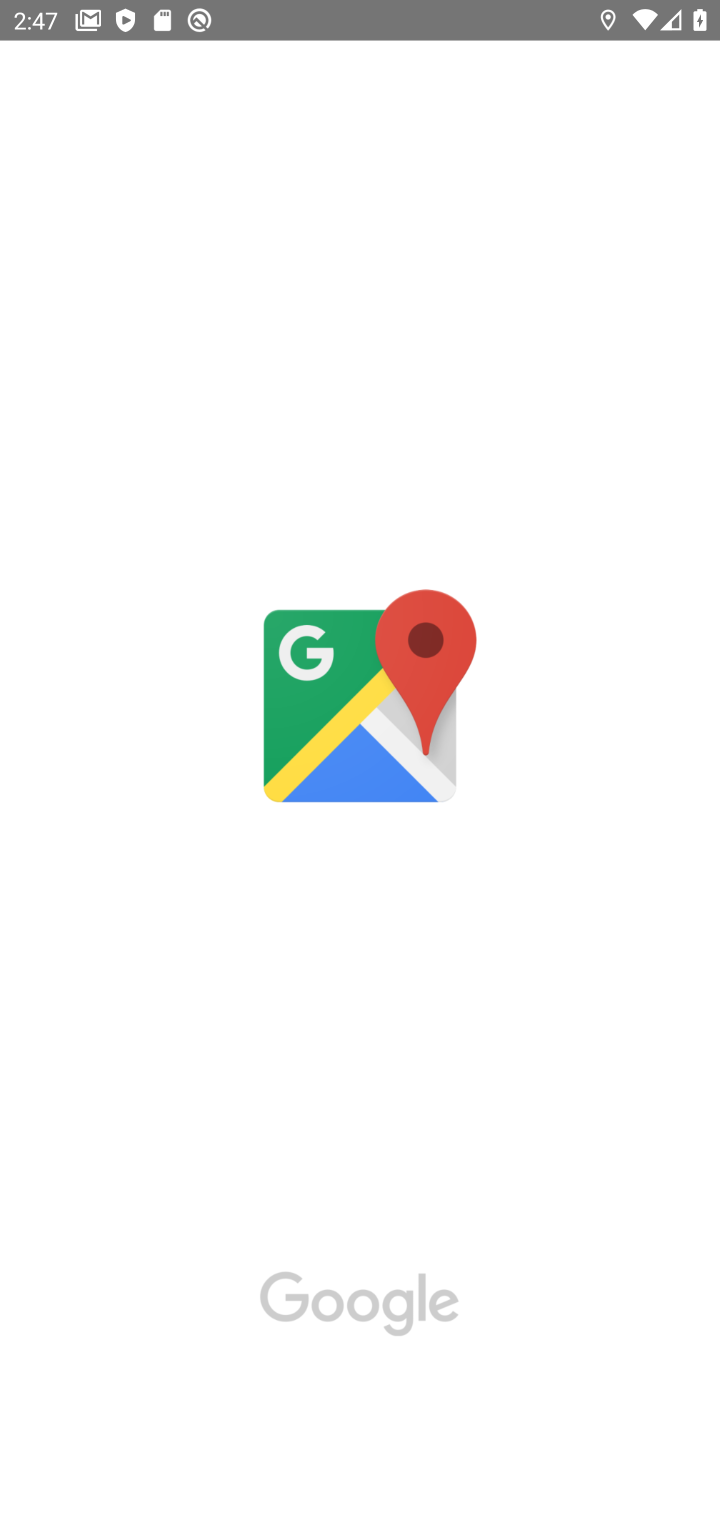
Step 29: click (358, 720)
Your task to perform on an android device: Open settings on Google Maps Image 30: 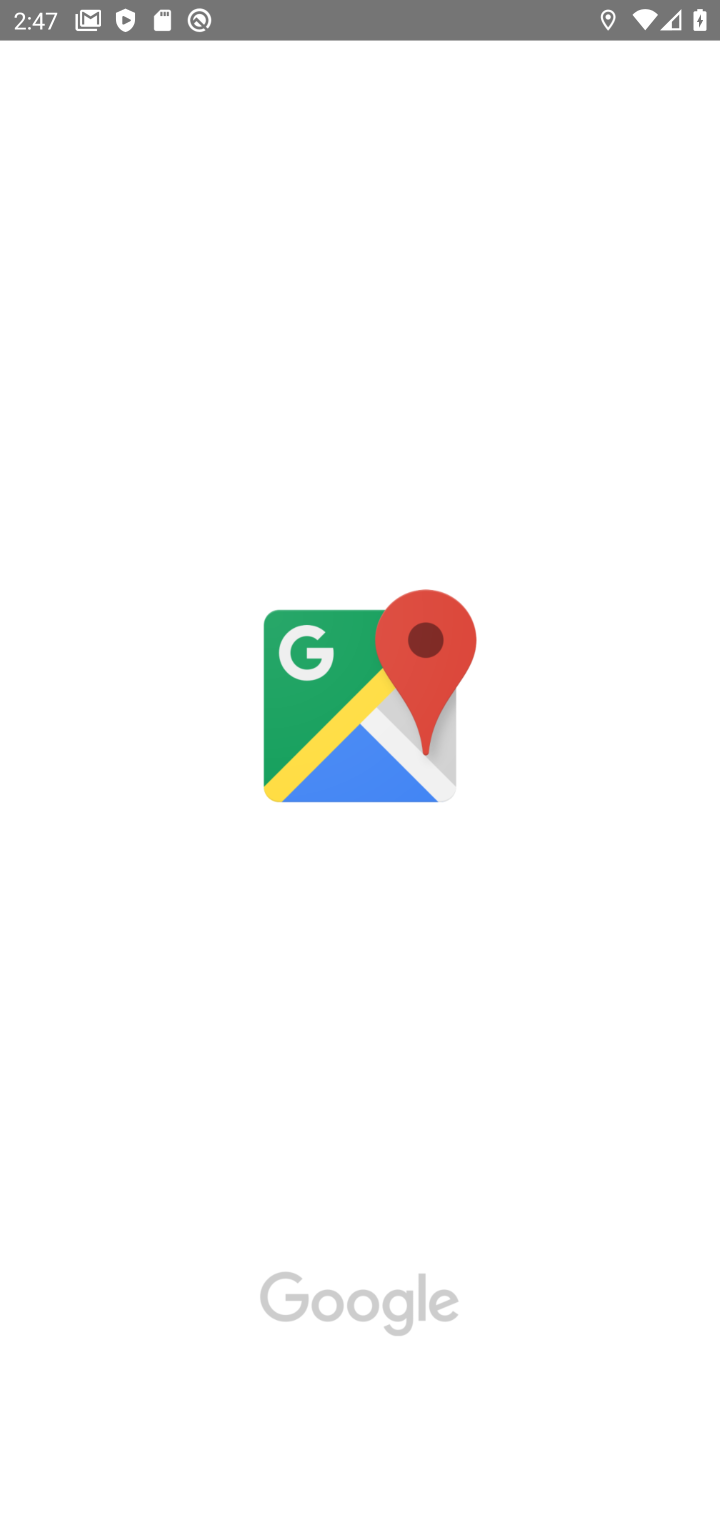
Step 30: click (352, 693)
Your task to perform on an android device: Open settings on Google Maps Image 31: 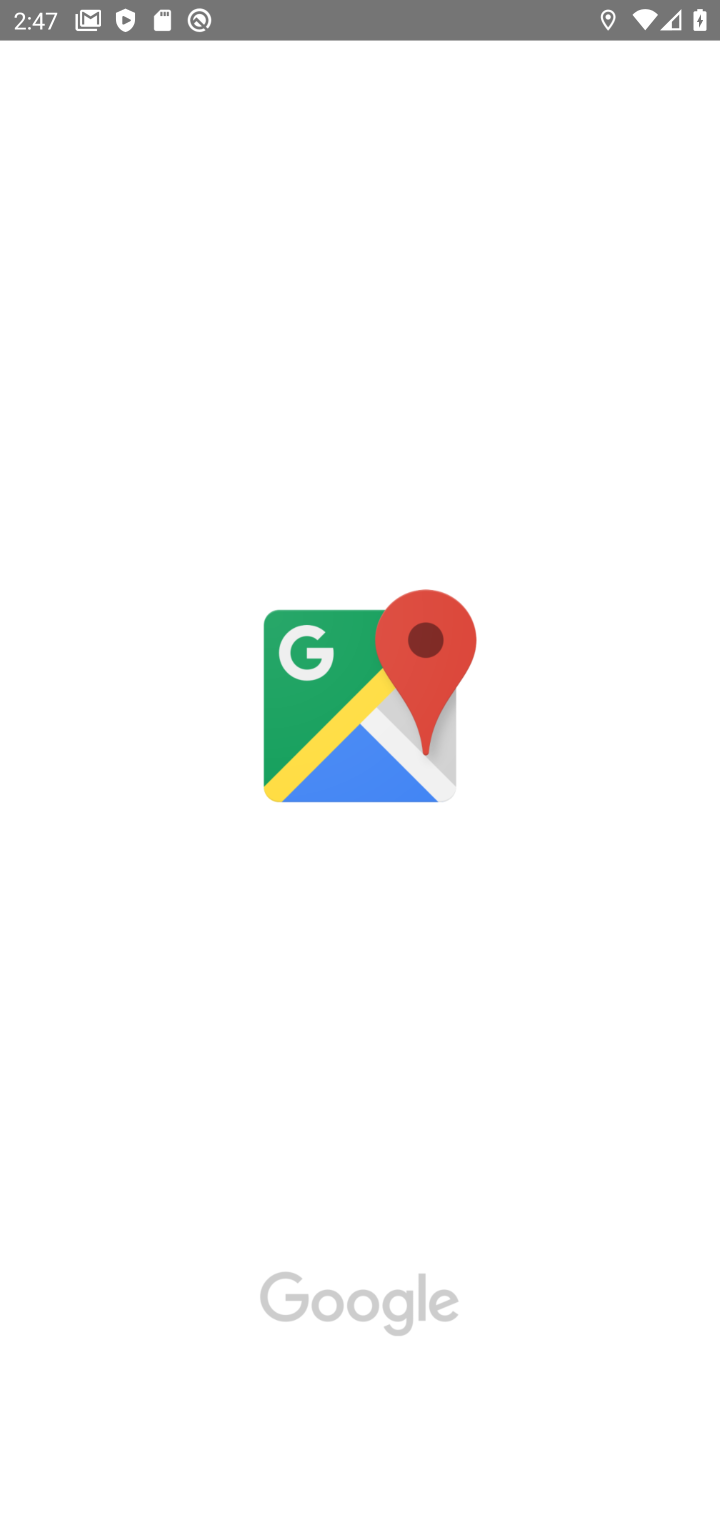
Step 31: click (343, 705)
Your task to perform on an android device: Open settings on Google Maps Image 32: 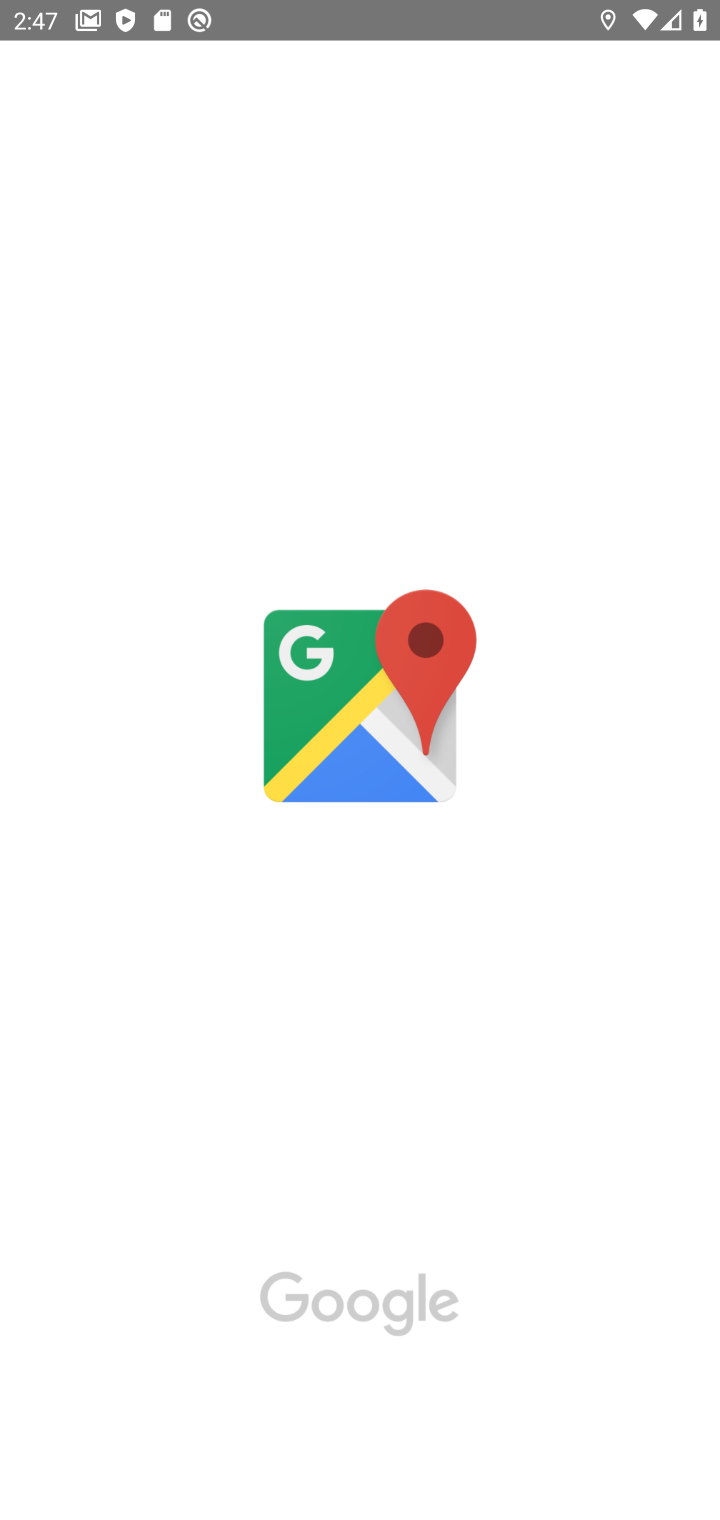
Step 32: click (345, 705)
Your task to perform on an android device: Open settings on Google Maps Image 33: 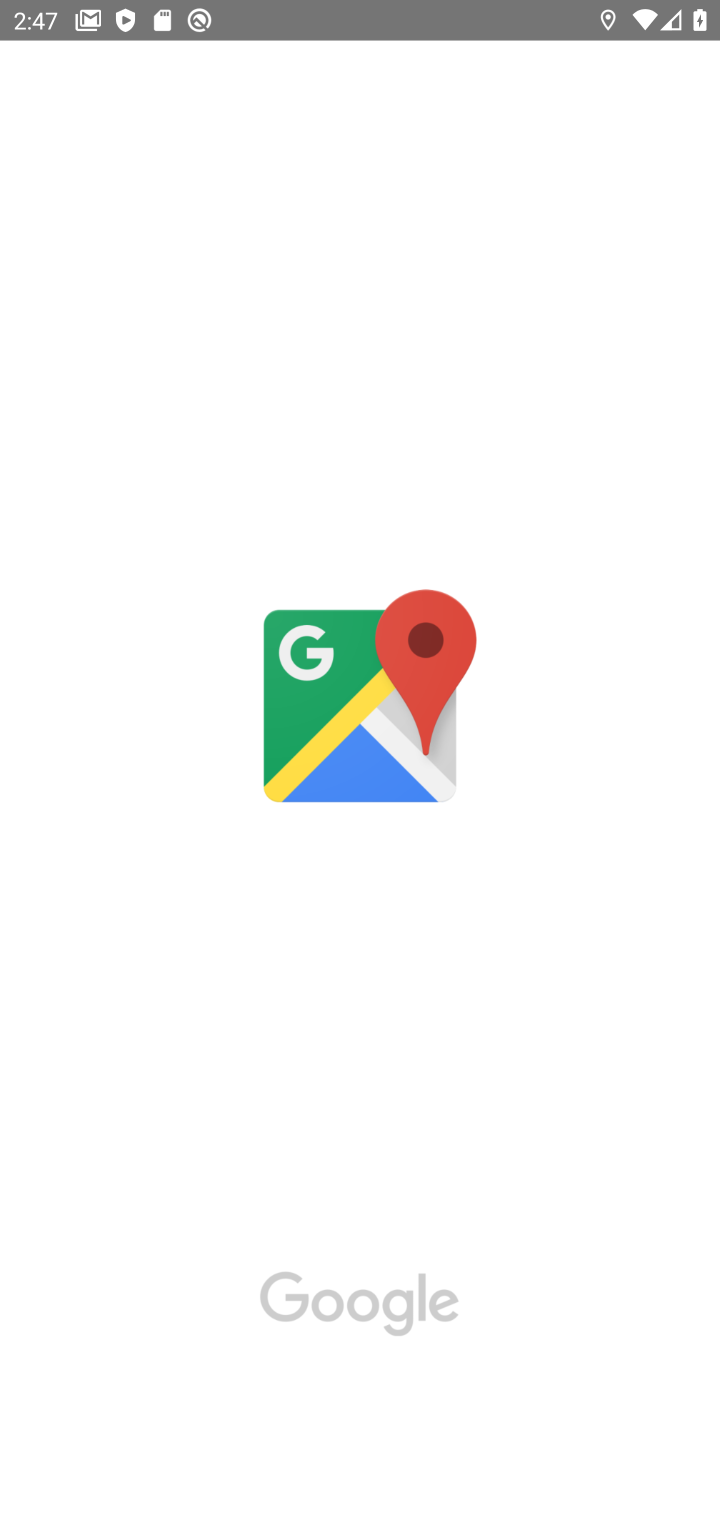
Step 33: click (322, 746)
Your task to perform on an android device: Open settings on Google Maps Image 34: 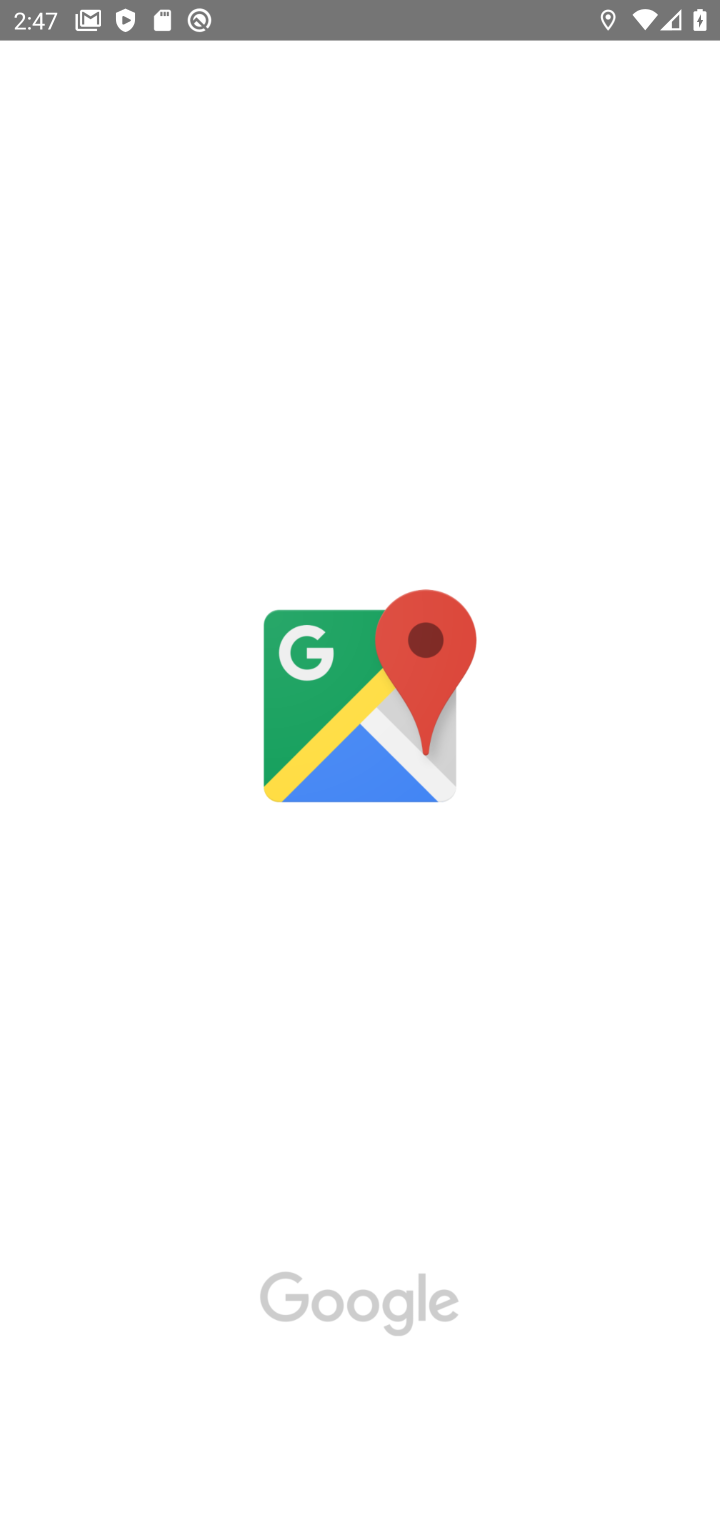
Step 34: click (322, 750)
Your task to perform on an android device: Open settings on Google Maps Image 35: 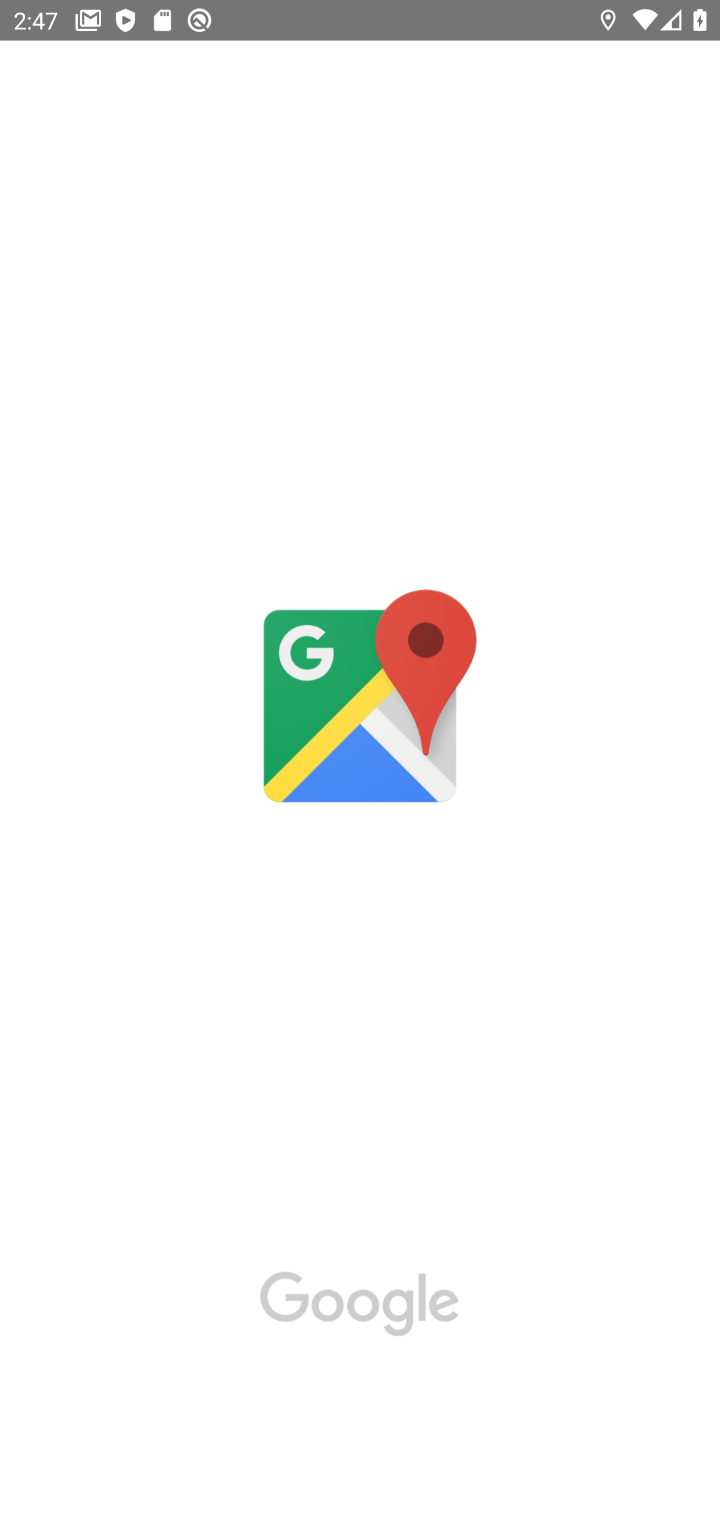
Step 35: click (331, 766)
Your task to perform on an android device: Open settings on Google Maps Image 36: 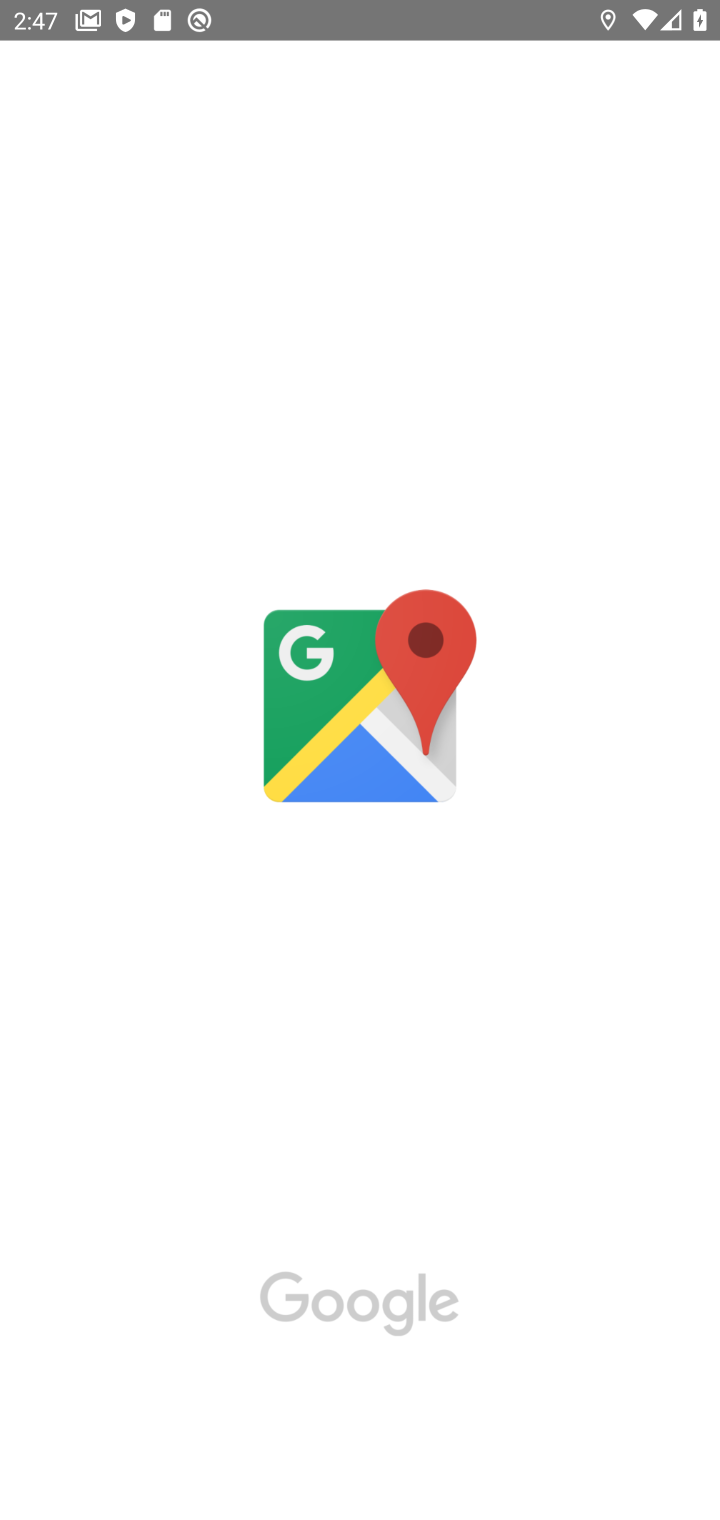
Step 36: click (333, 771)
Your task to perform on an android device: Open settings on Google Maps Image 37: 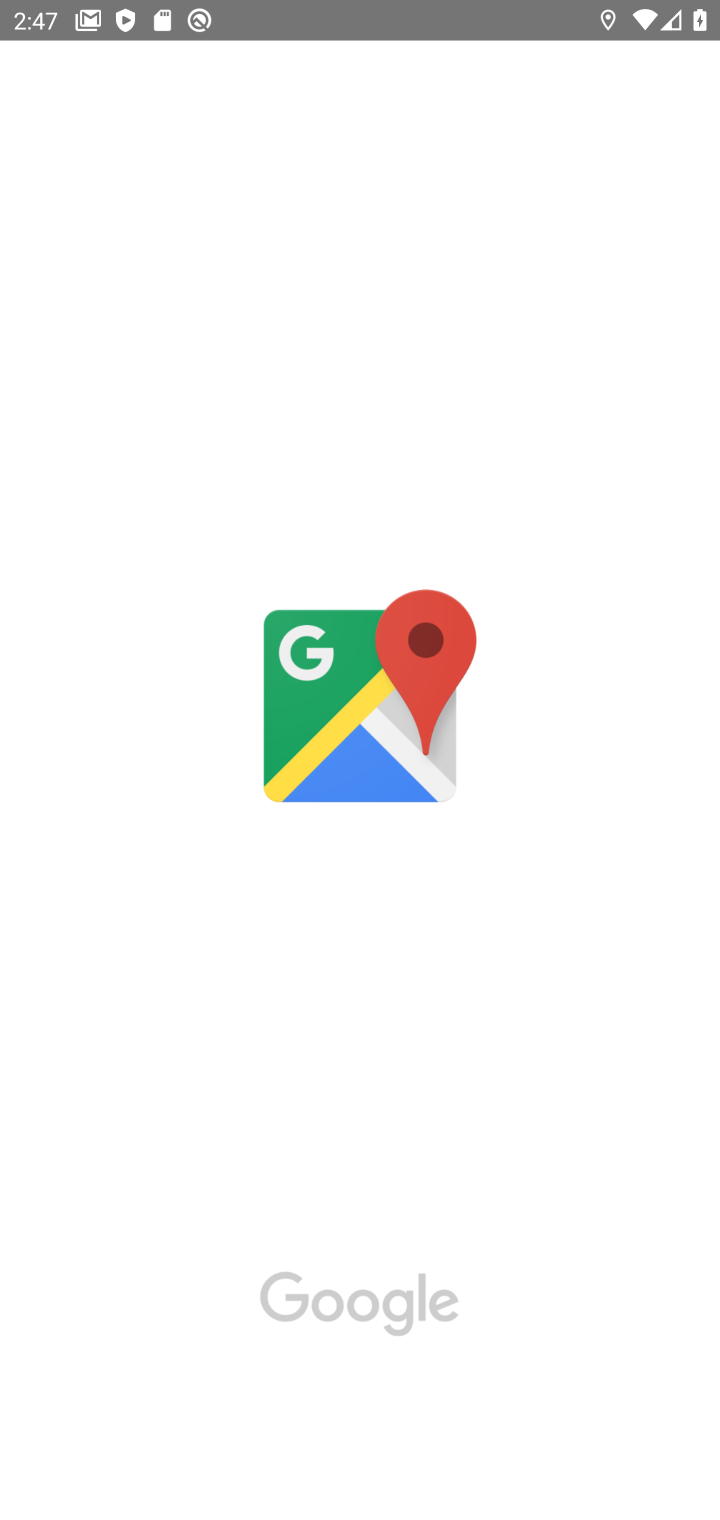
Step 37: click (335, 775)
Your task to perform on an android device: Open settings on Google Maps Image 38: 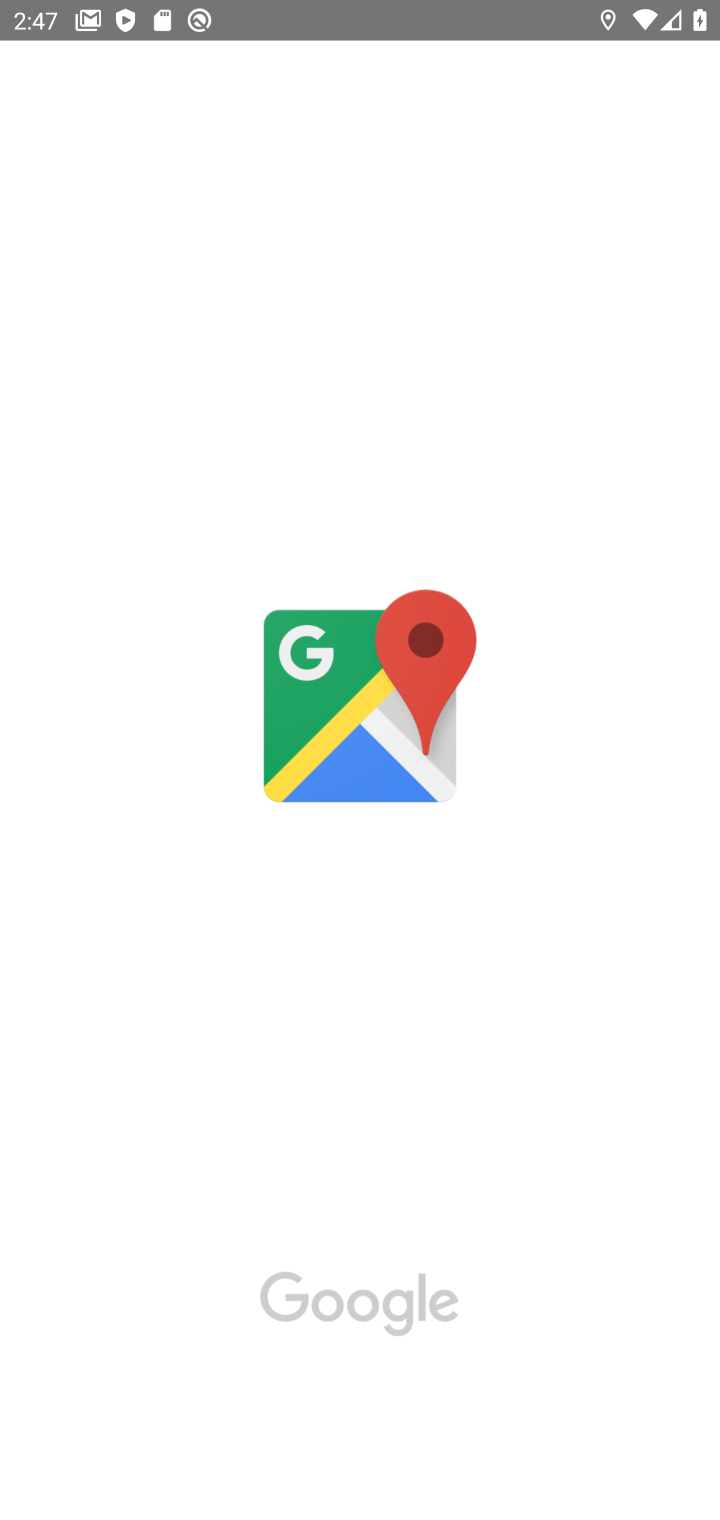
Step 38: click (337, 783)
Your task to perform on an android device: Open settings on Google Maps Image 39: 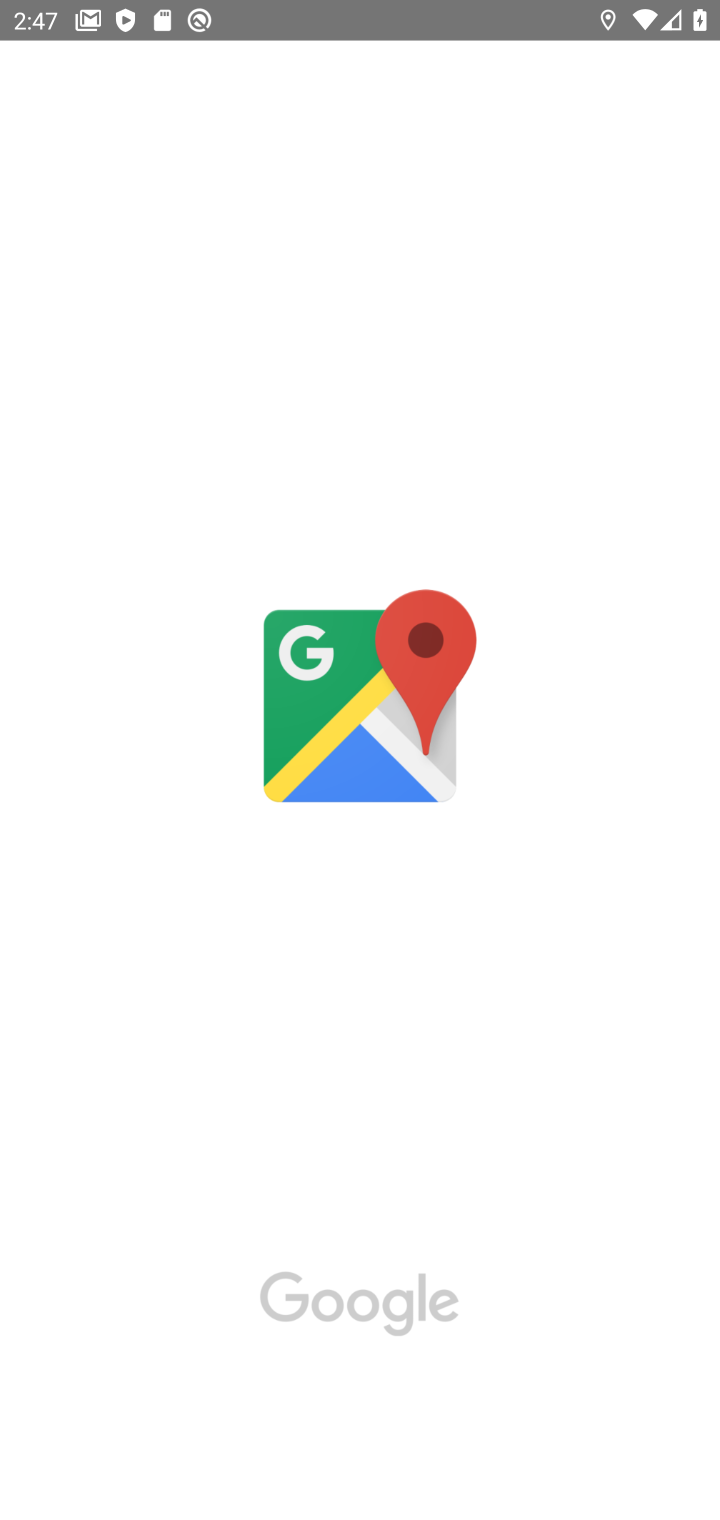
Step 39: click (339, 696)
Your task to perform on an android device: Open settings on Google Maps Image 40: 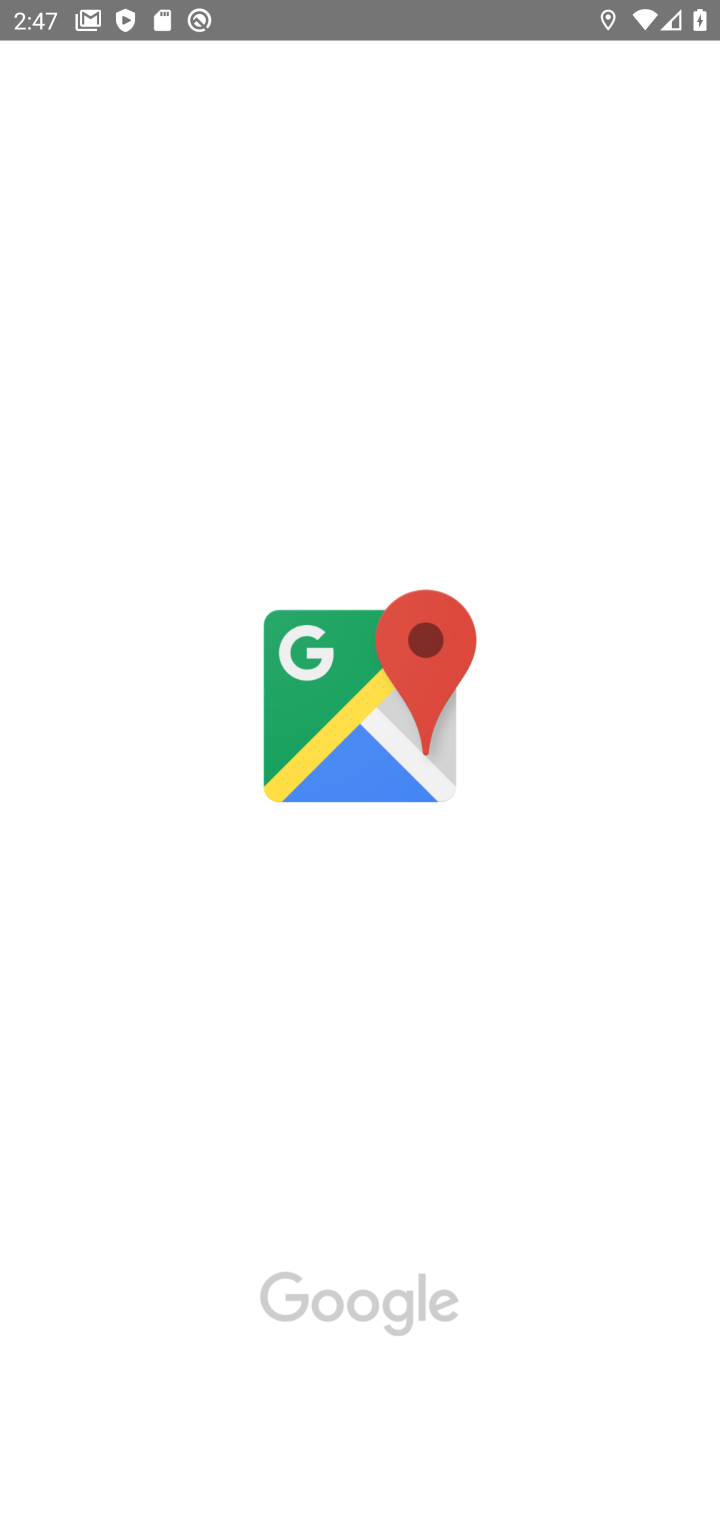
Step 40: click (560, 648)
Your task to perform on an android device: Open settings on Google Maps Image 41: 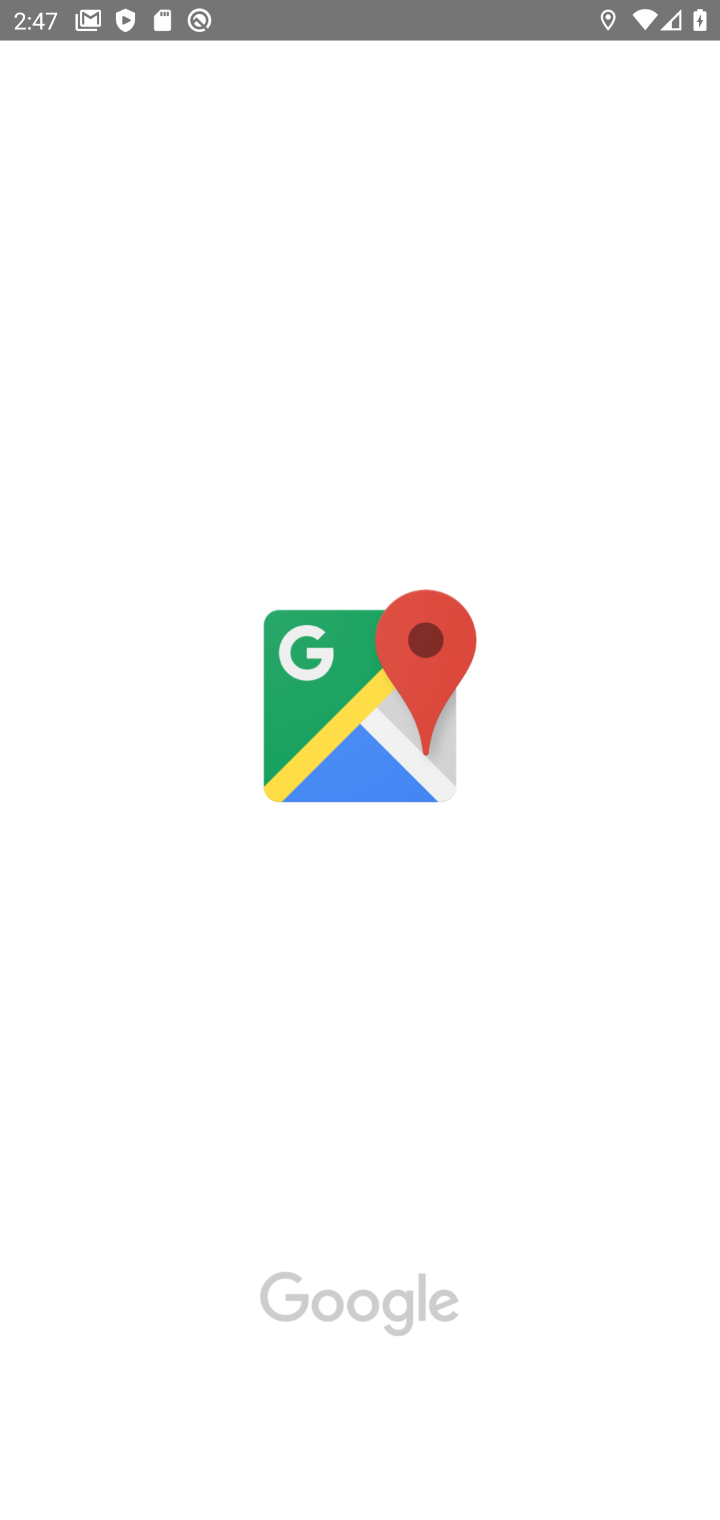
Step 41: click (393, 700)
Your task to perform on an android device: Open settings on Google Maps Image 42: 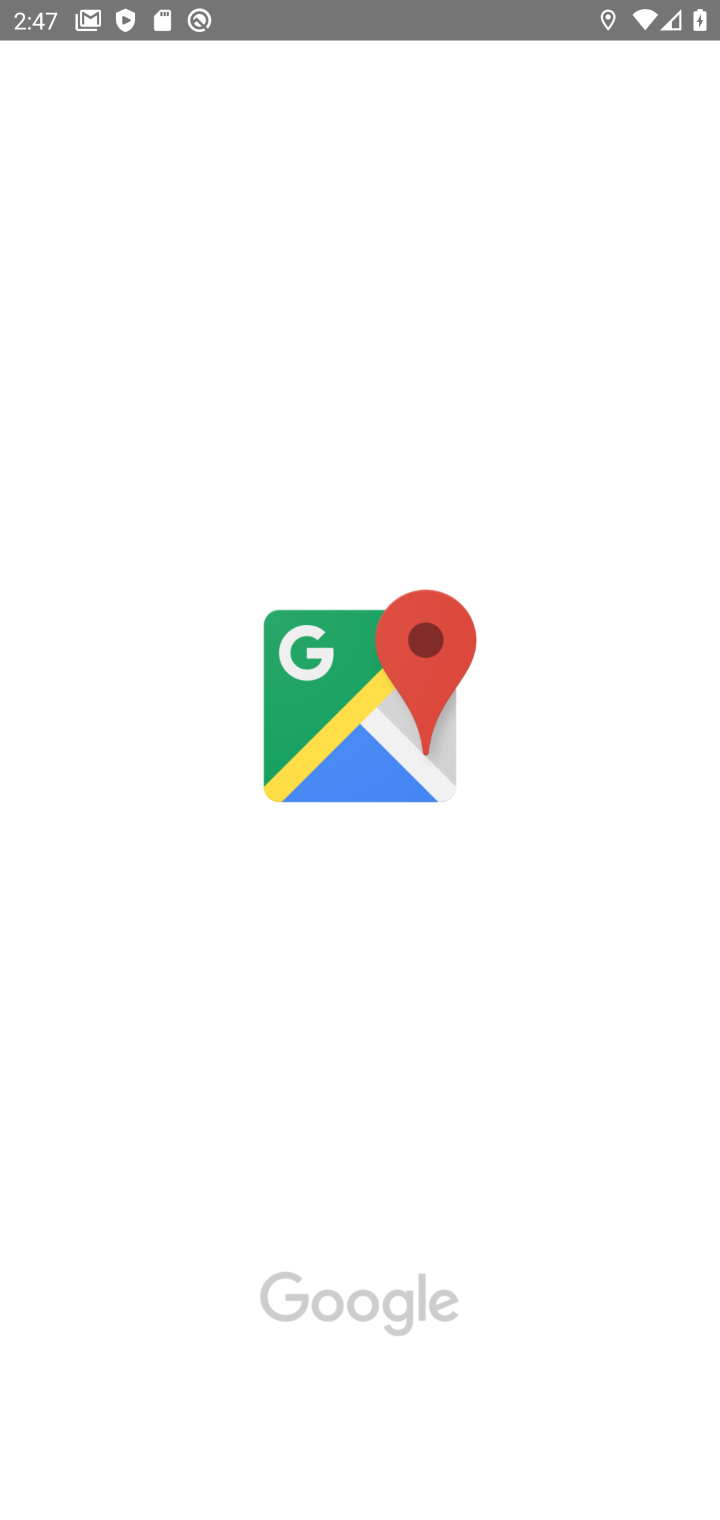
Step 42: click (395, 698)
Your task to perform on an android device: Open settings on Google Maps Image 43: 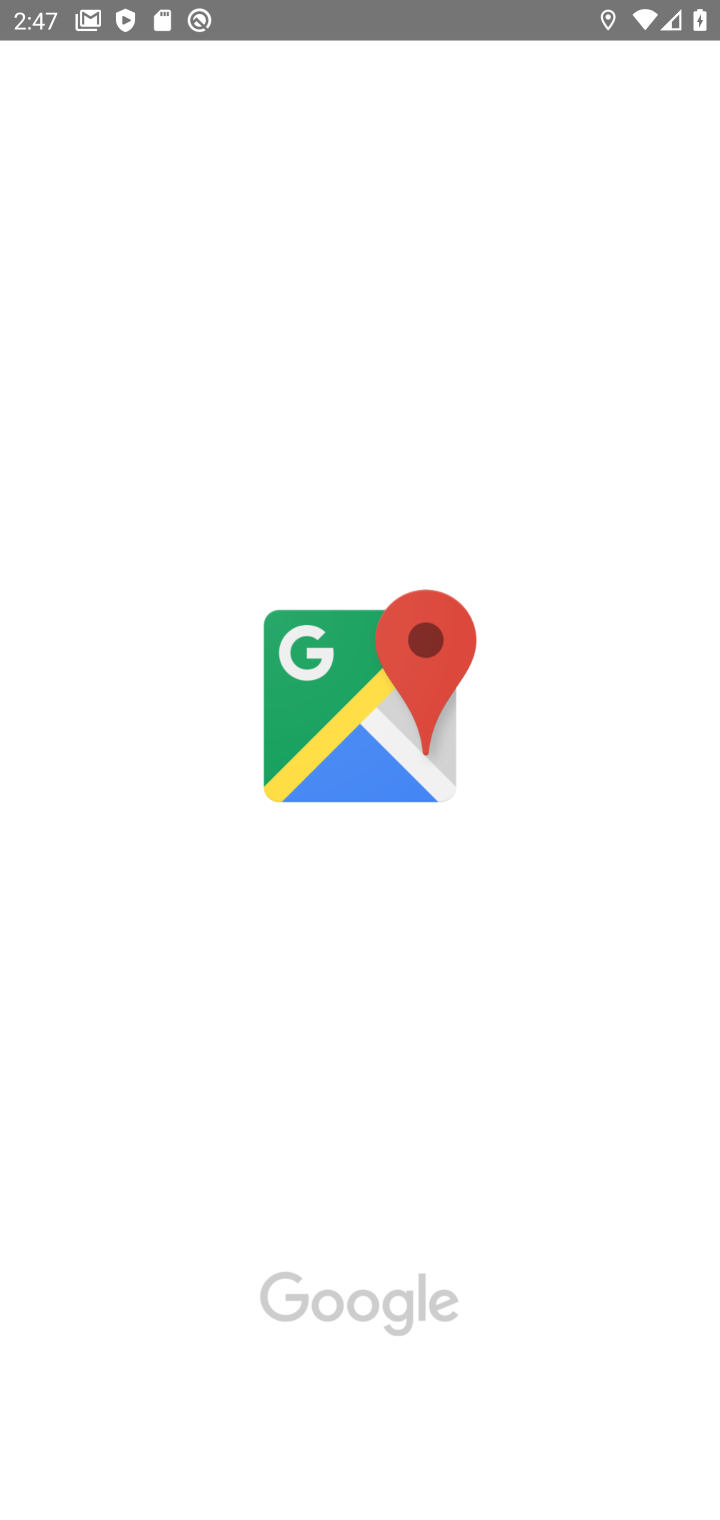
Step 43: click (374, 614)
Your task to perform on an android device: Open settings on Google Maps Image 44: 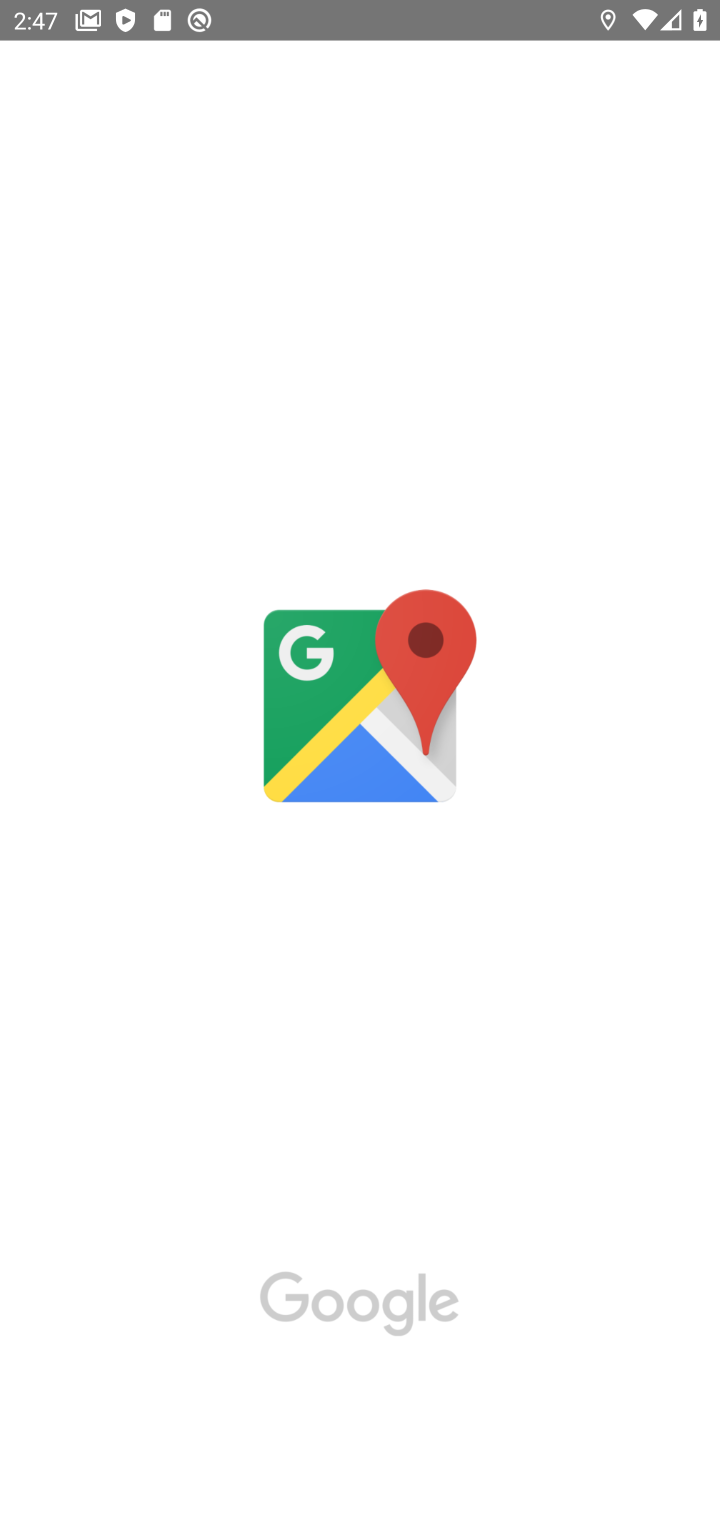
Step 44: task complete